Your task to perform on an android device: Open a new incognito tab in the chrome app Image 0: 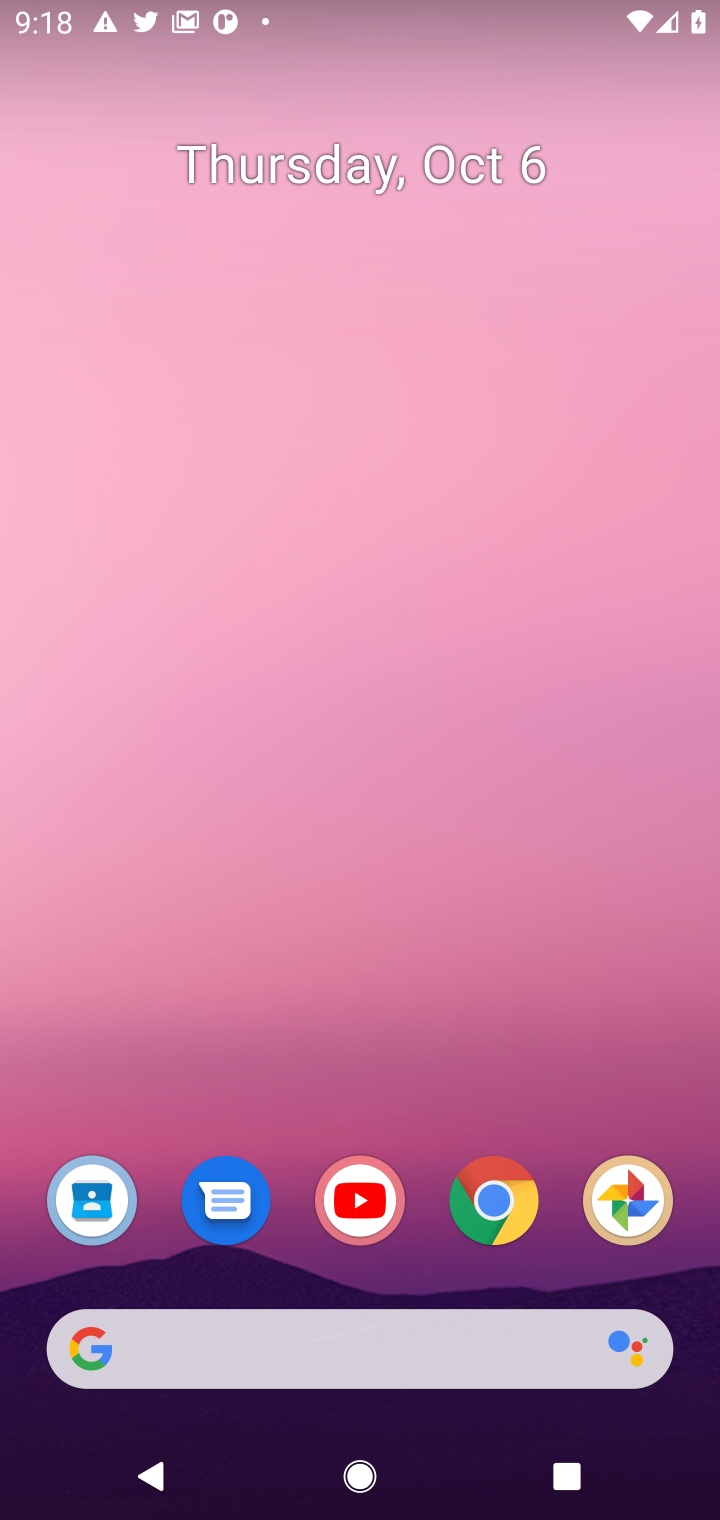
Step 0: click (499, 1240)
Your task to perform on an android device: Open a new incognito tab in the chrome app Image 1: 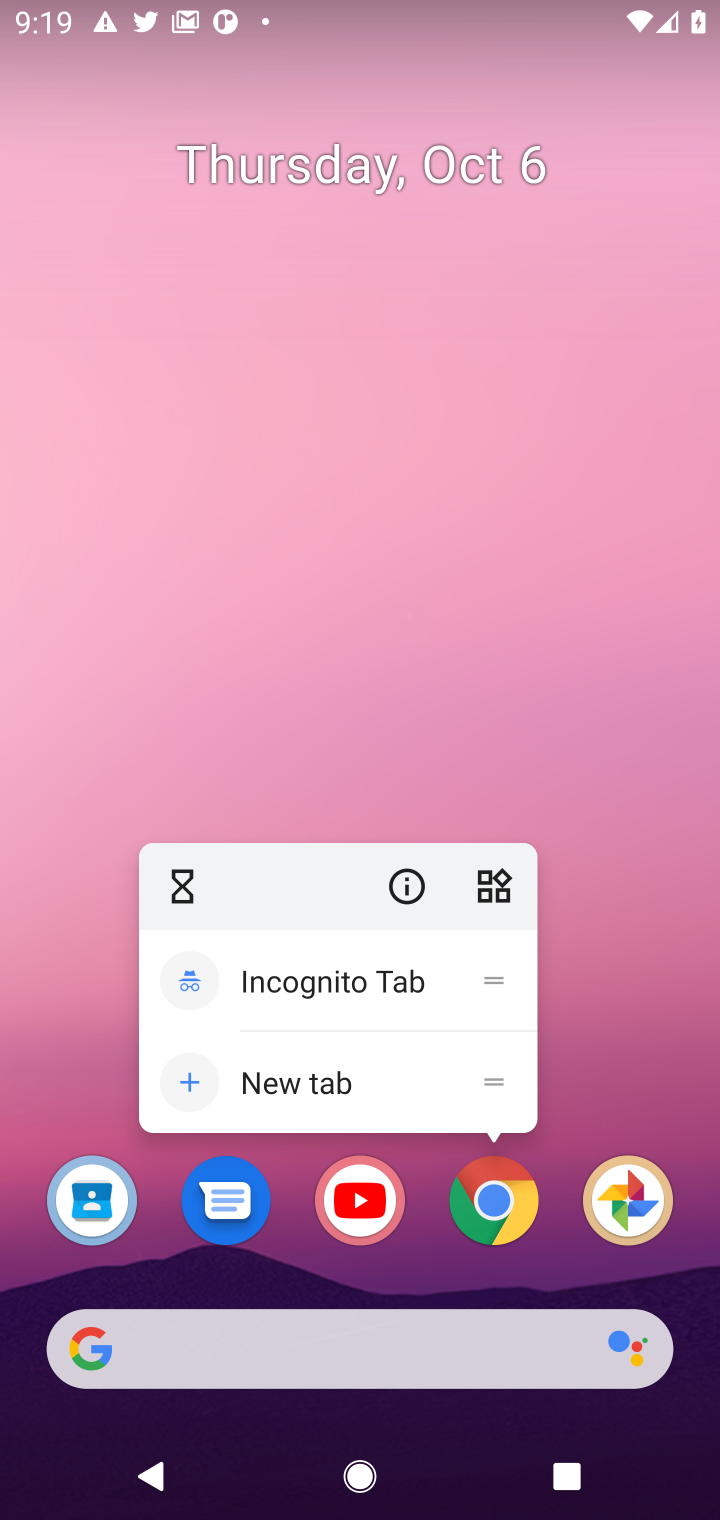
Step 1: click (376, 978)
Your task to perform on an android device: Open a new incognito tab in the chrome app Image 2: 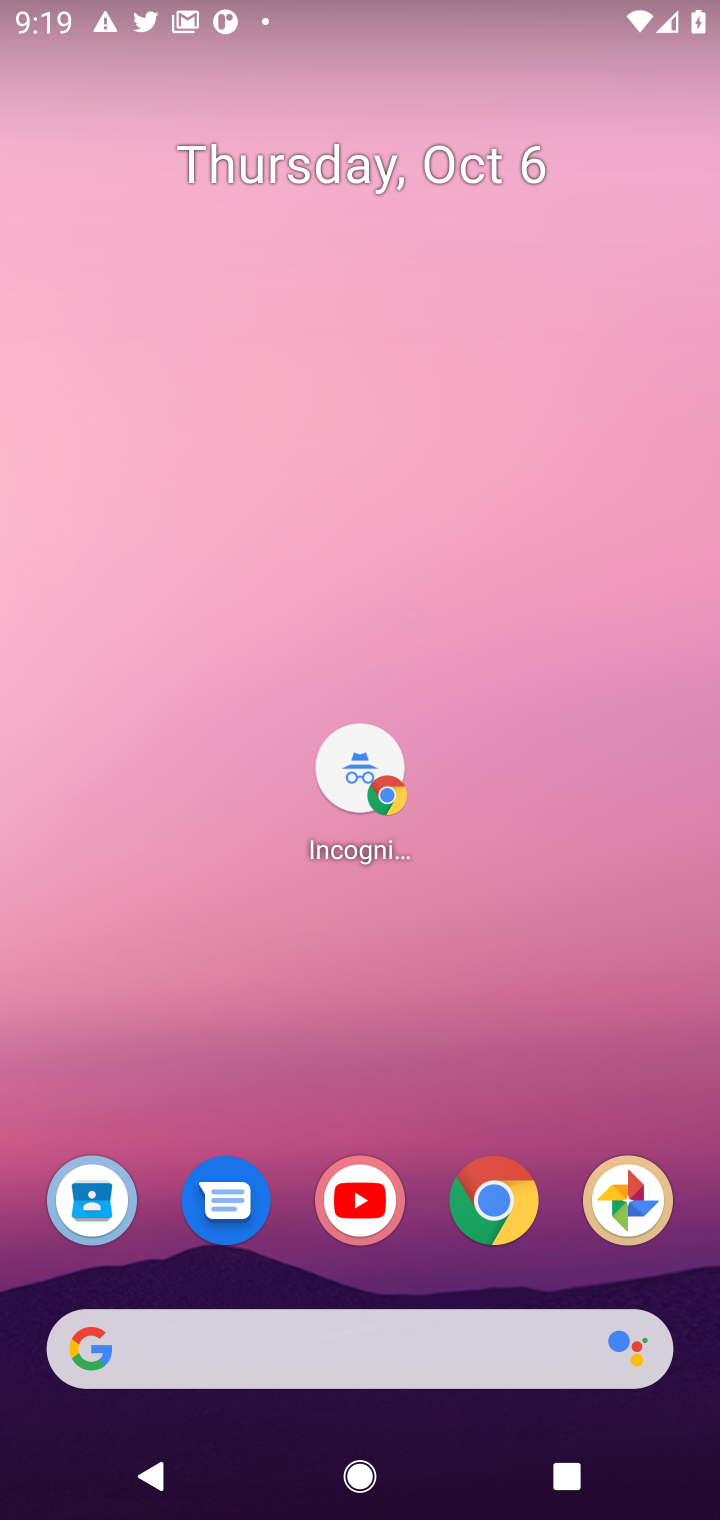
Step 2: click (380, 802)
Your task to perform on an android device: Open a new incognito tab in the chrome app Image 3: 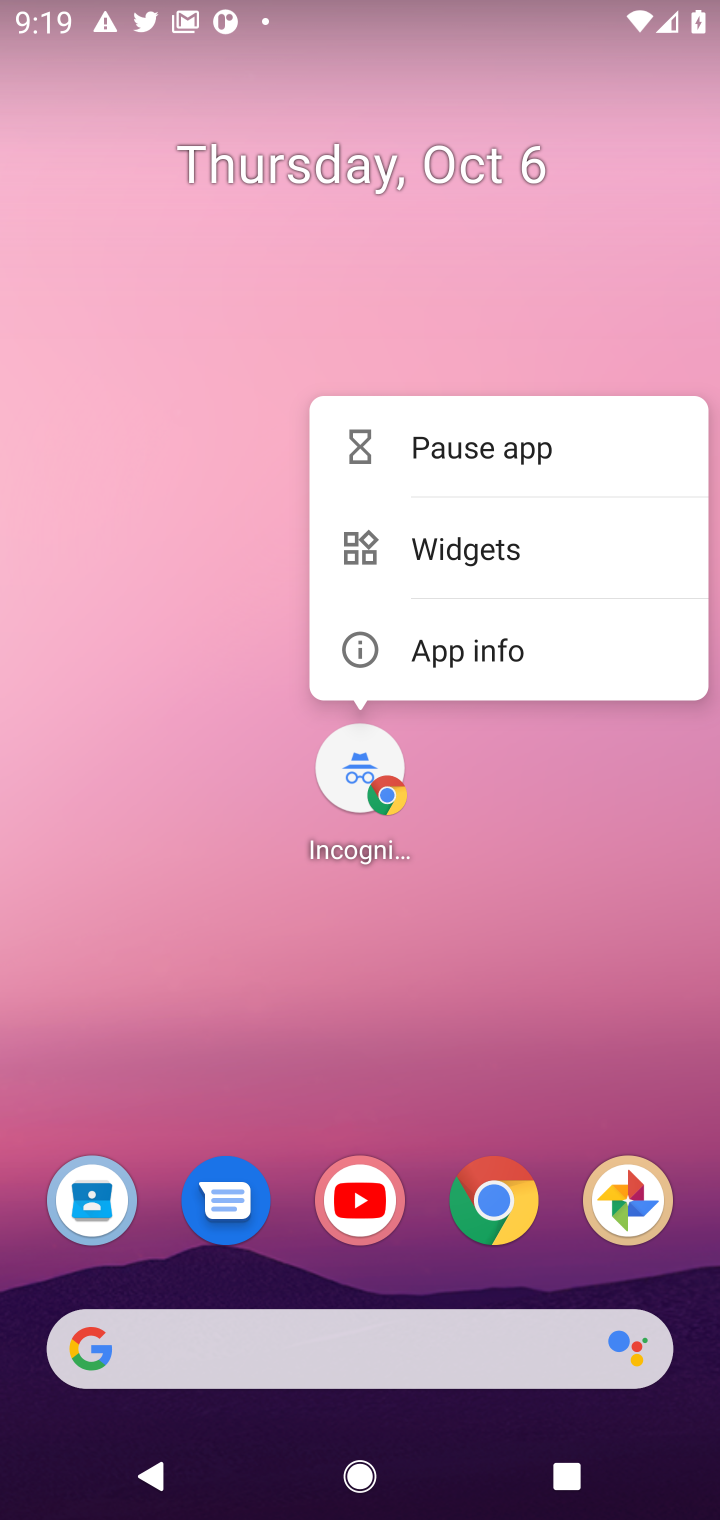
Step 3: press home button
Your task to perform on an android device: Open a new incognito tab in the chrome app Image 4: 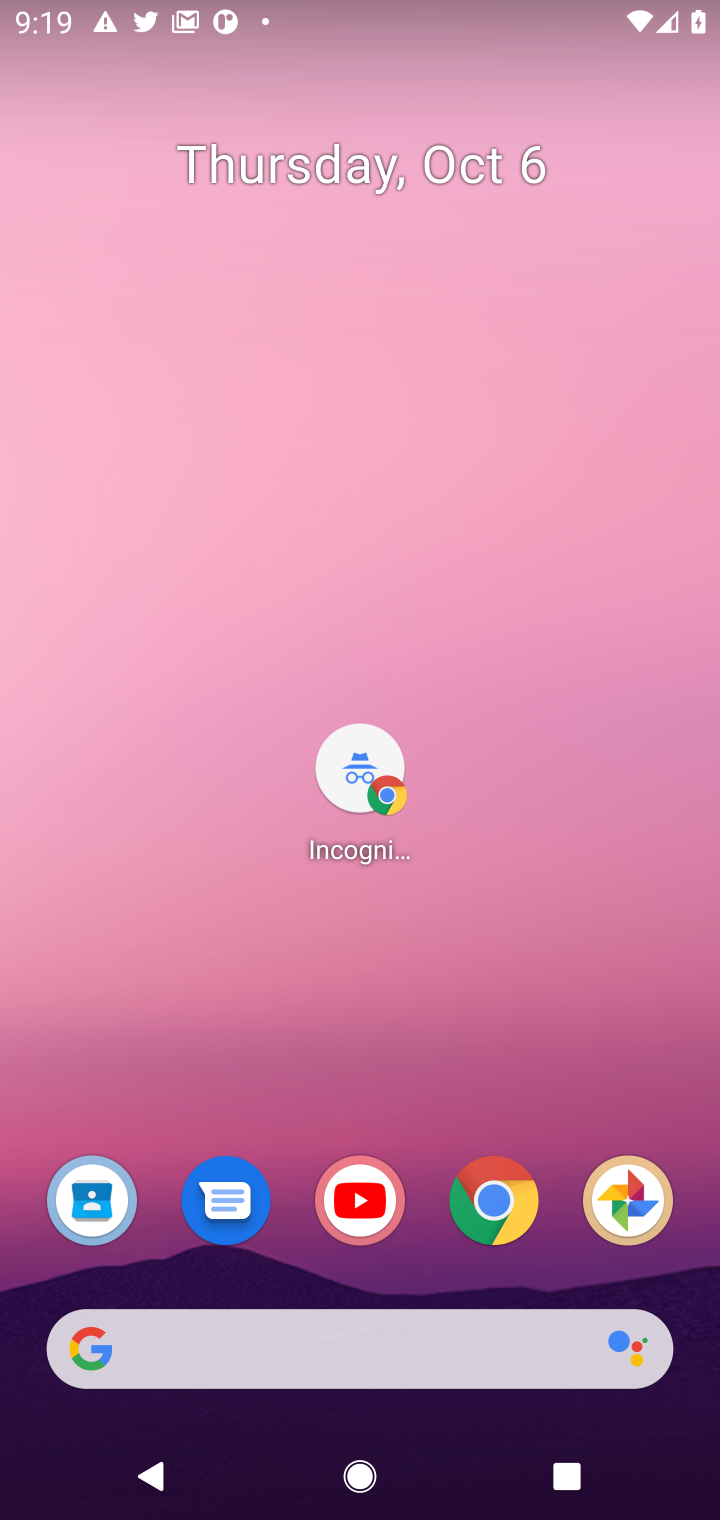
Step 4: press back button
Your task to perform on an android device: Open a new incognito tab in the chrome app Image 5: 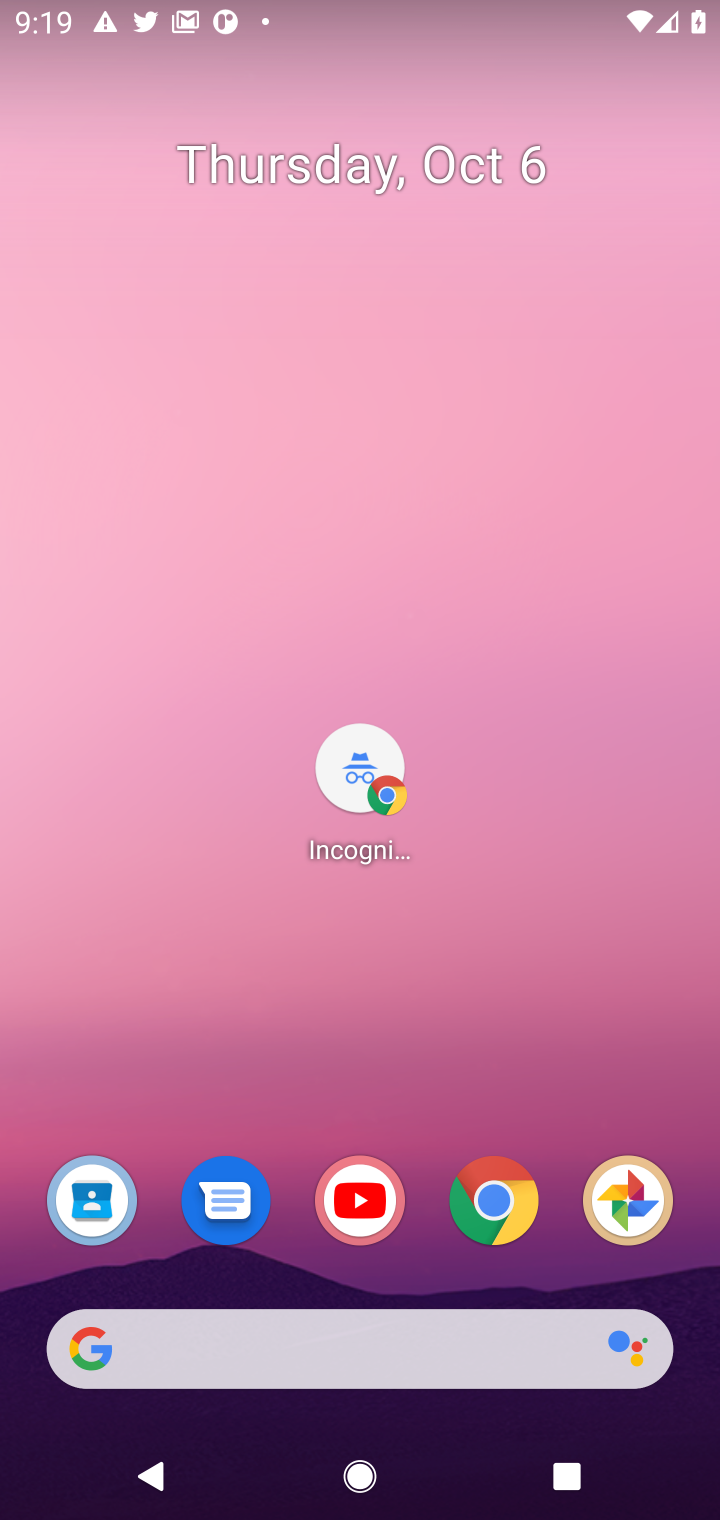
Step 5: press home button
Your task to perform on an android device: Open a new incognito tab in the chrome app Image 6: 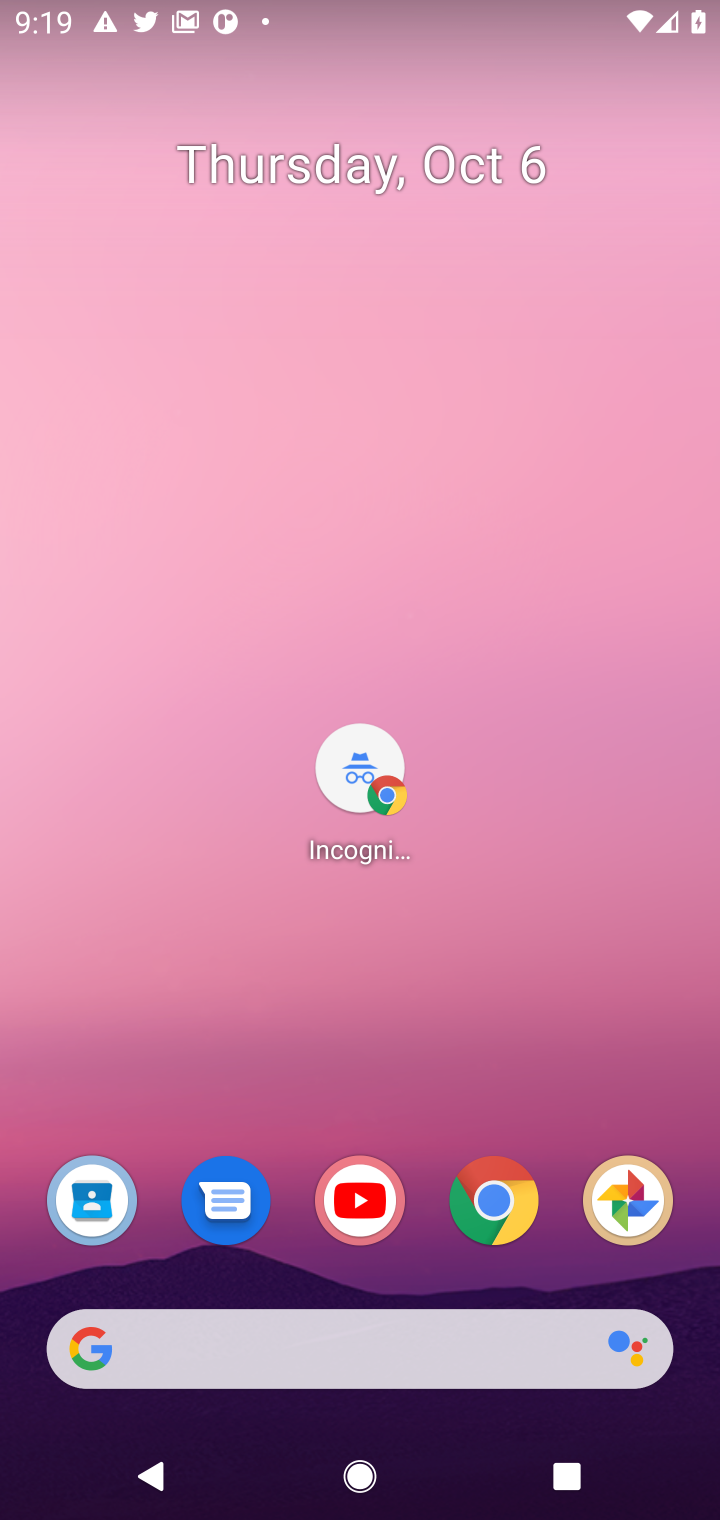
Step 6: press back button
Your task to perform on an android device: Open a new incognito tab in the chrome app Image 7: 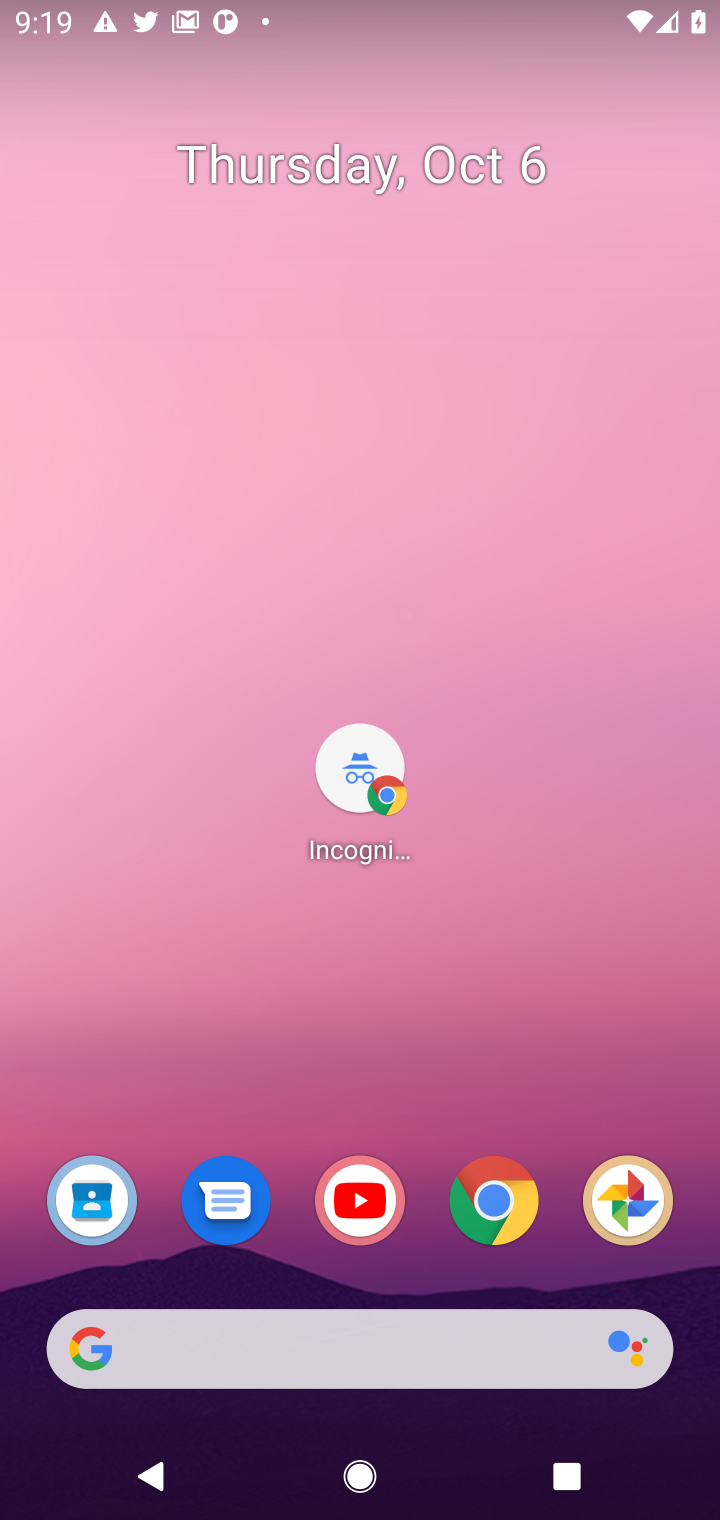
Step 7: click (497, 1178)
Your task to perform on an android device: Open a new incognito tab in the chrome app Image 8: 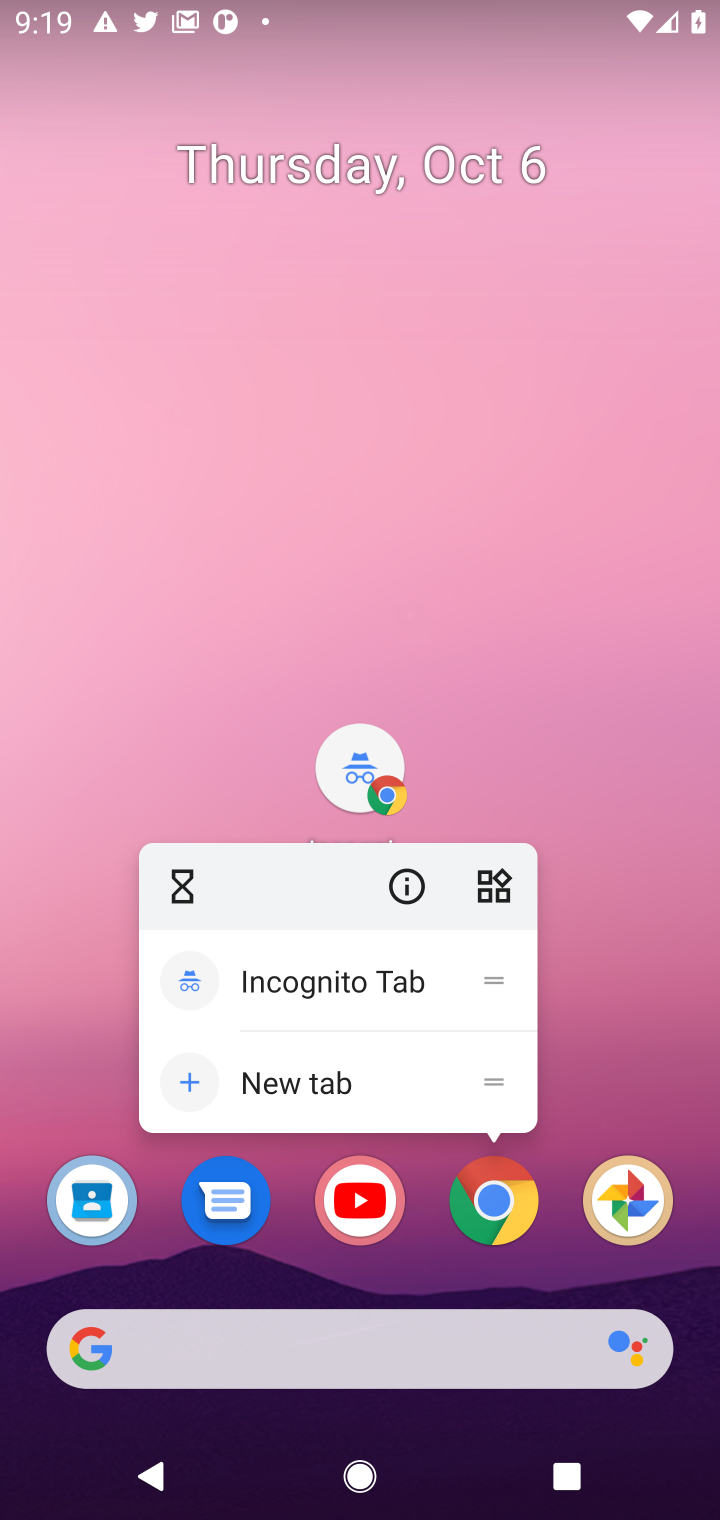
Step 8: click (304, 984)
Your task to perform on an android device: Open a new incognito tab in the chrome app Image 9: 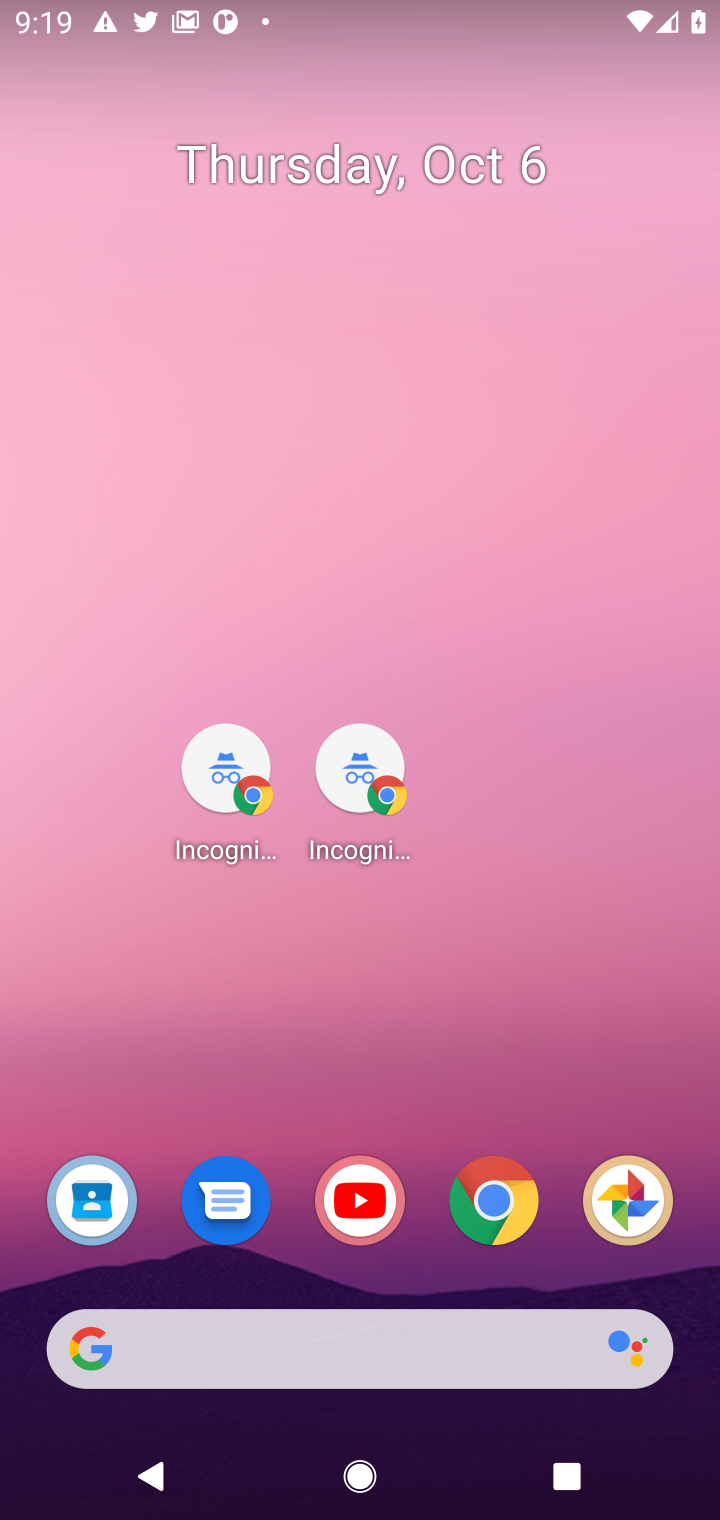
Step 9: click (240, 770)
Your task to perform on an android device: Open a new incognito tab in the chrome app Image 10: 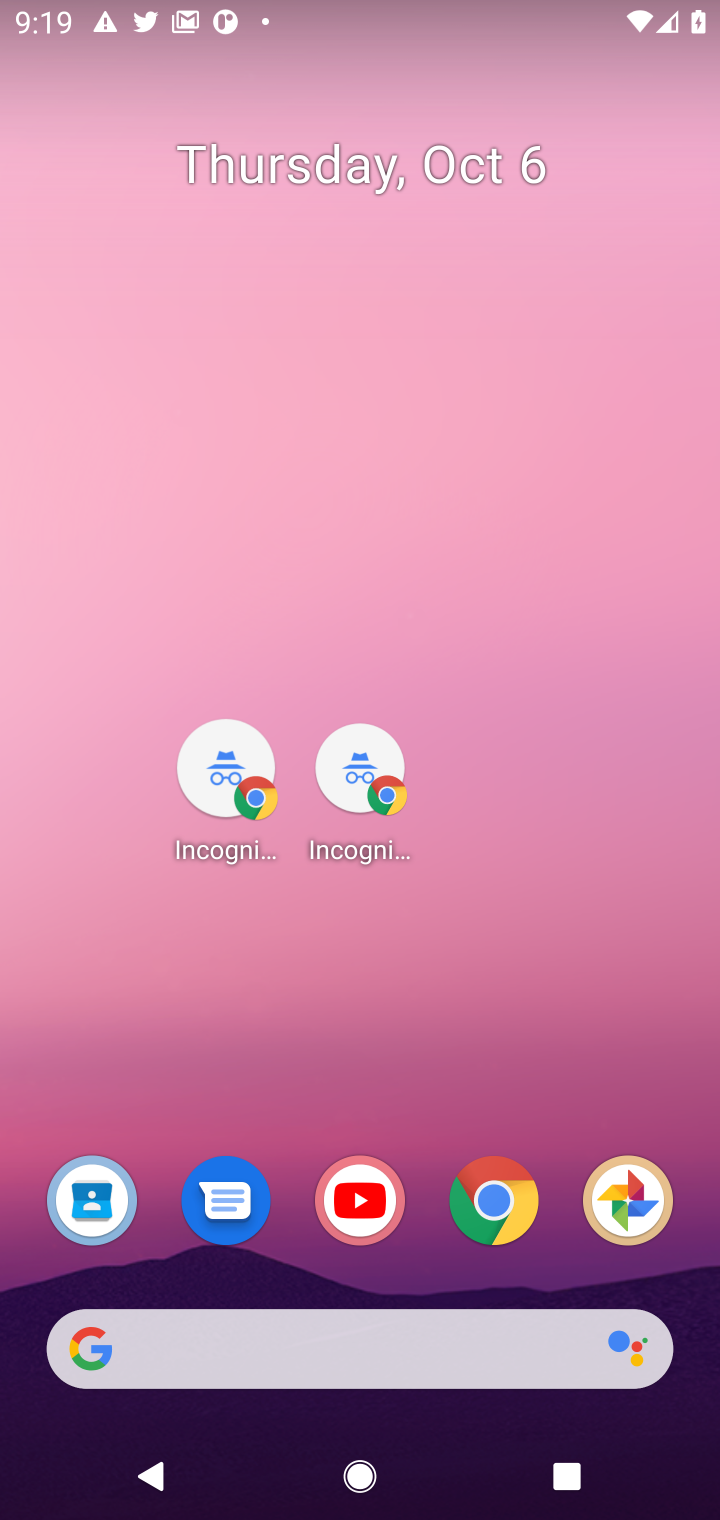
Step 10: click (240, 766)
Your task to perform on an android device: Open a new incognito tab in the chrome app Image 11: 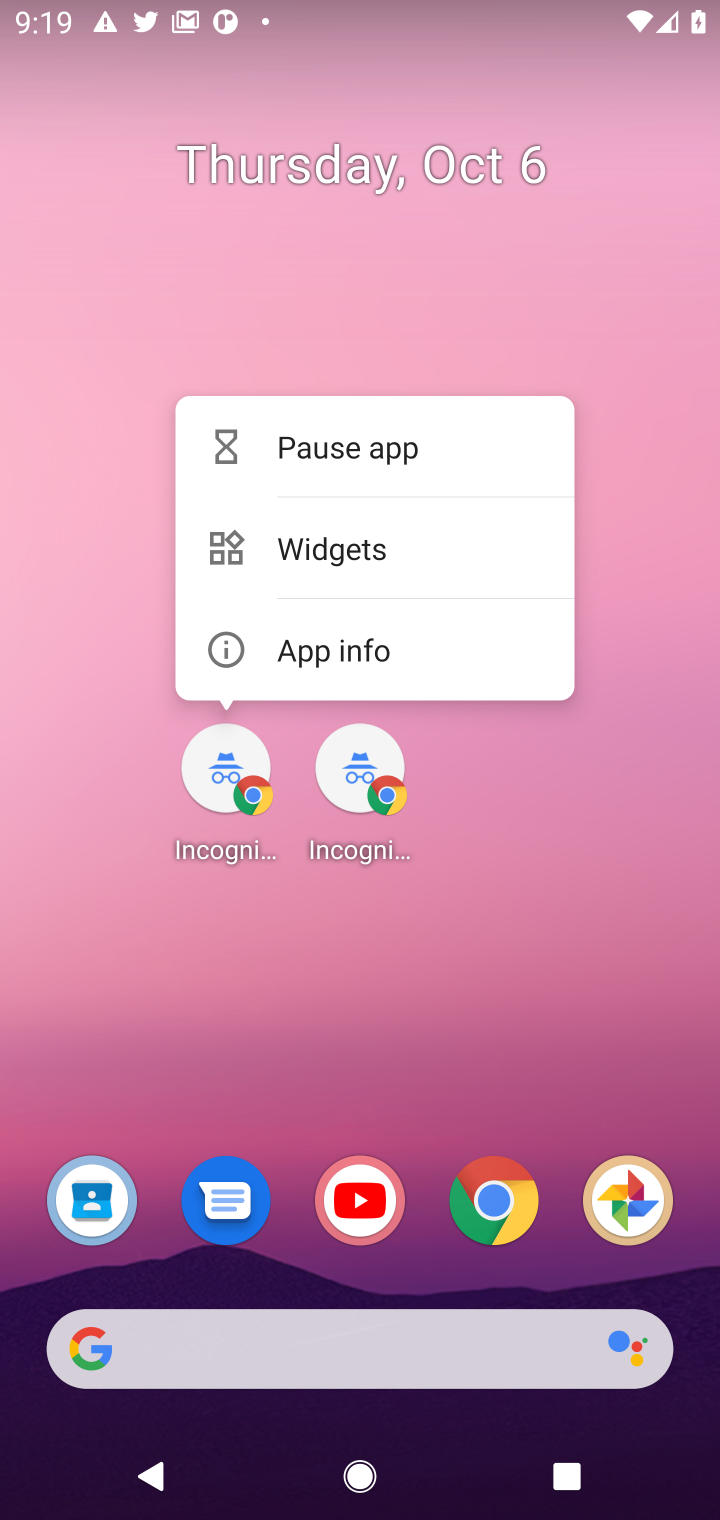
Step 11: click (364, 773)
Your task to perform on an android device: Open a new incognito tab in the chrome app Image 12: 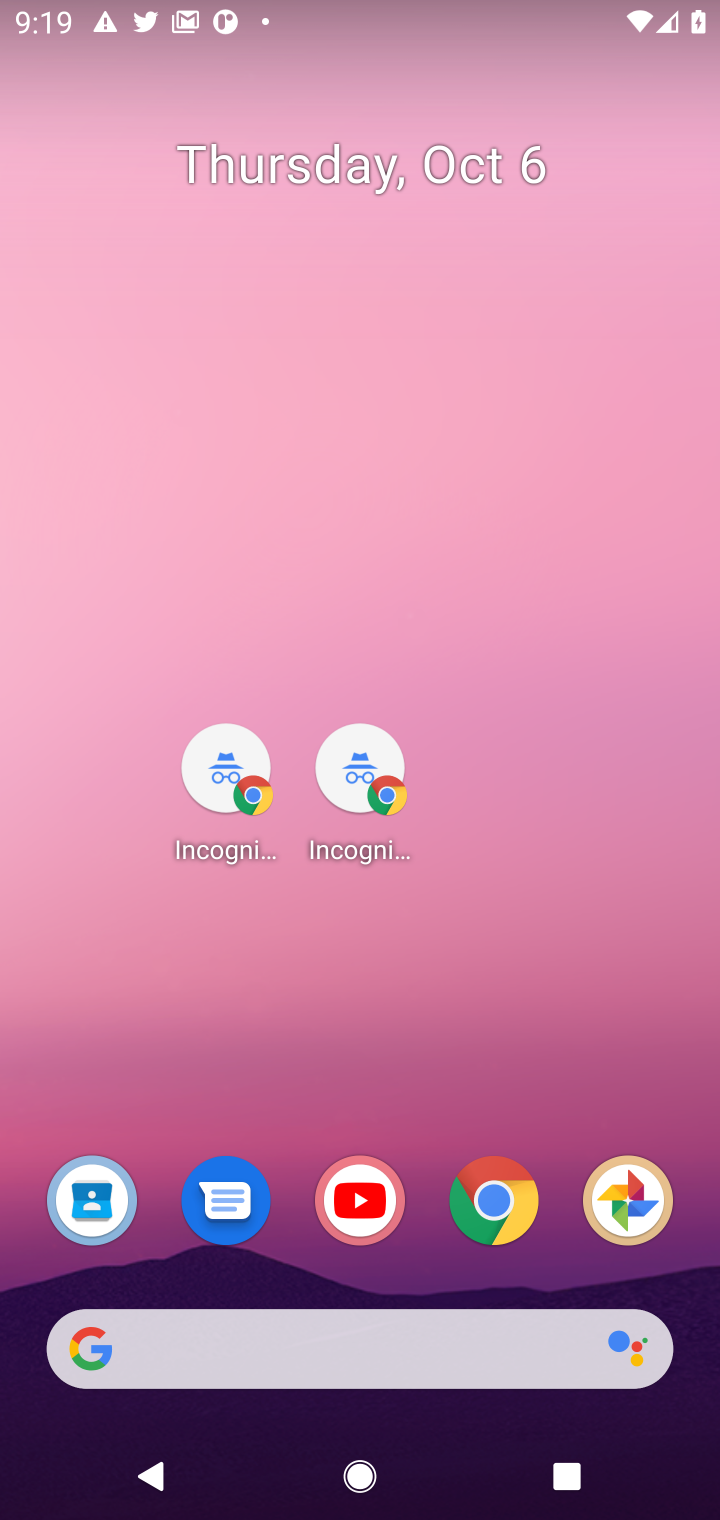
Step 12: click (504, 1202)
Your task to perform on an android device: Open a new incognito tab in the chrome app Image 13: 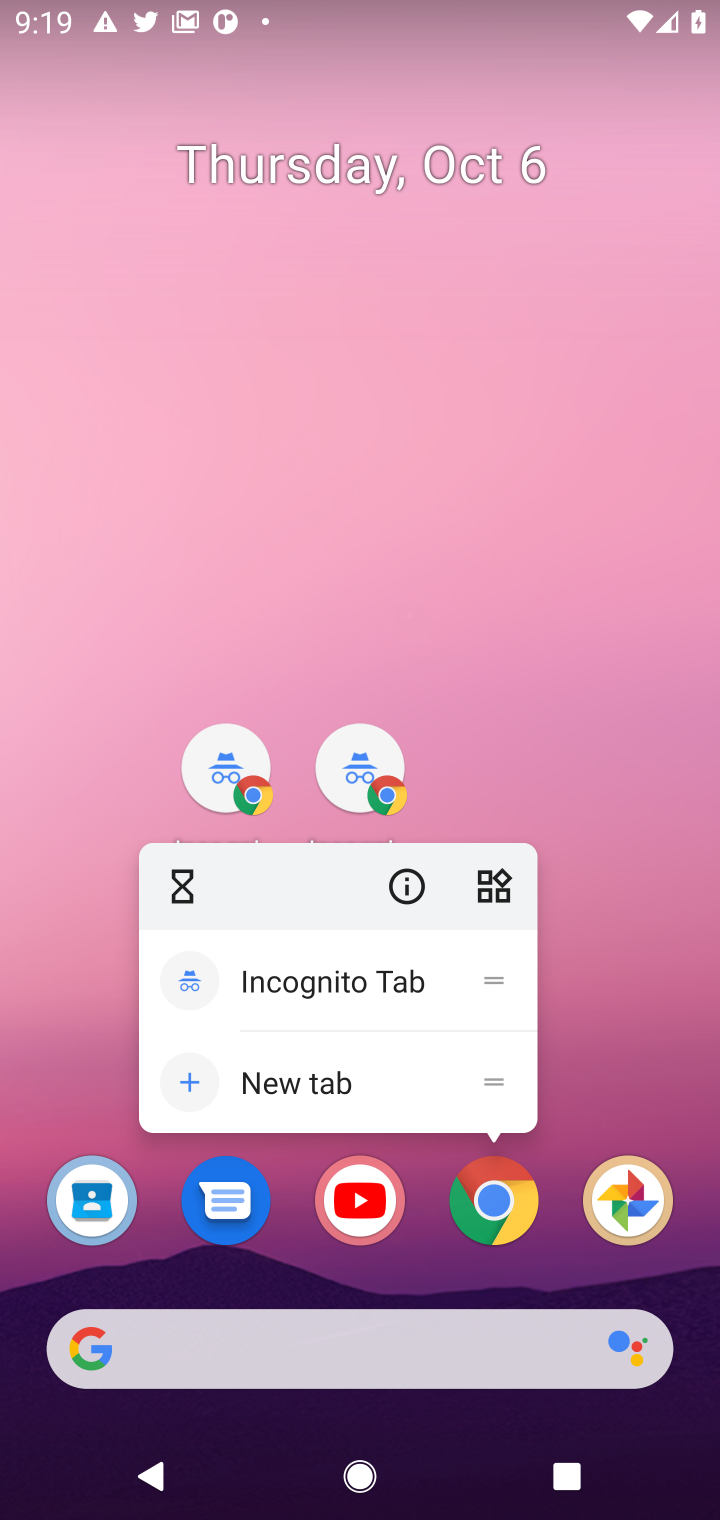
Step 13: click (185, 1083)
Your task to perform on an android device: Open a new incognito tab in the chrome app Image 14: 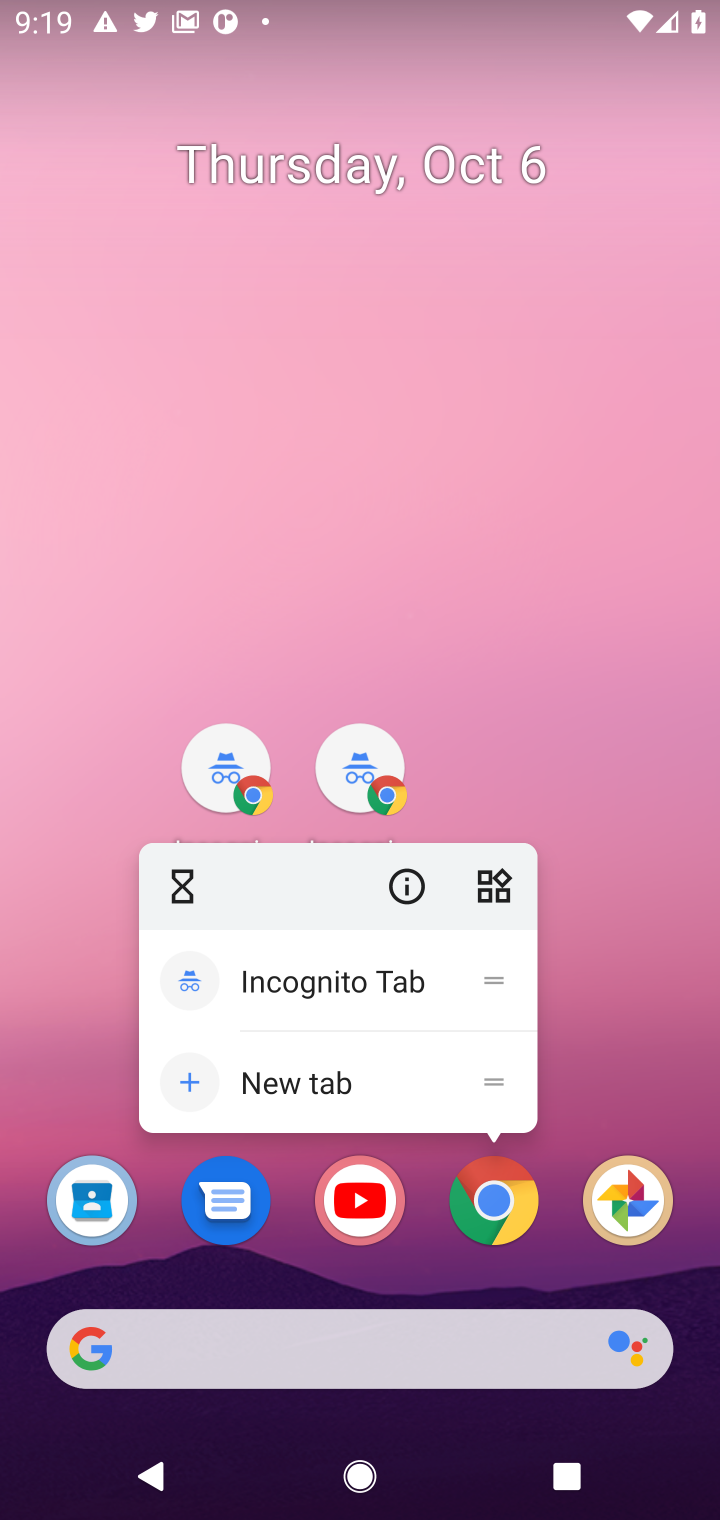
Step 14: press back button
Your task to perform on an android device: Open a new incognito tab in the chrome app Image 15: 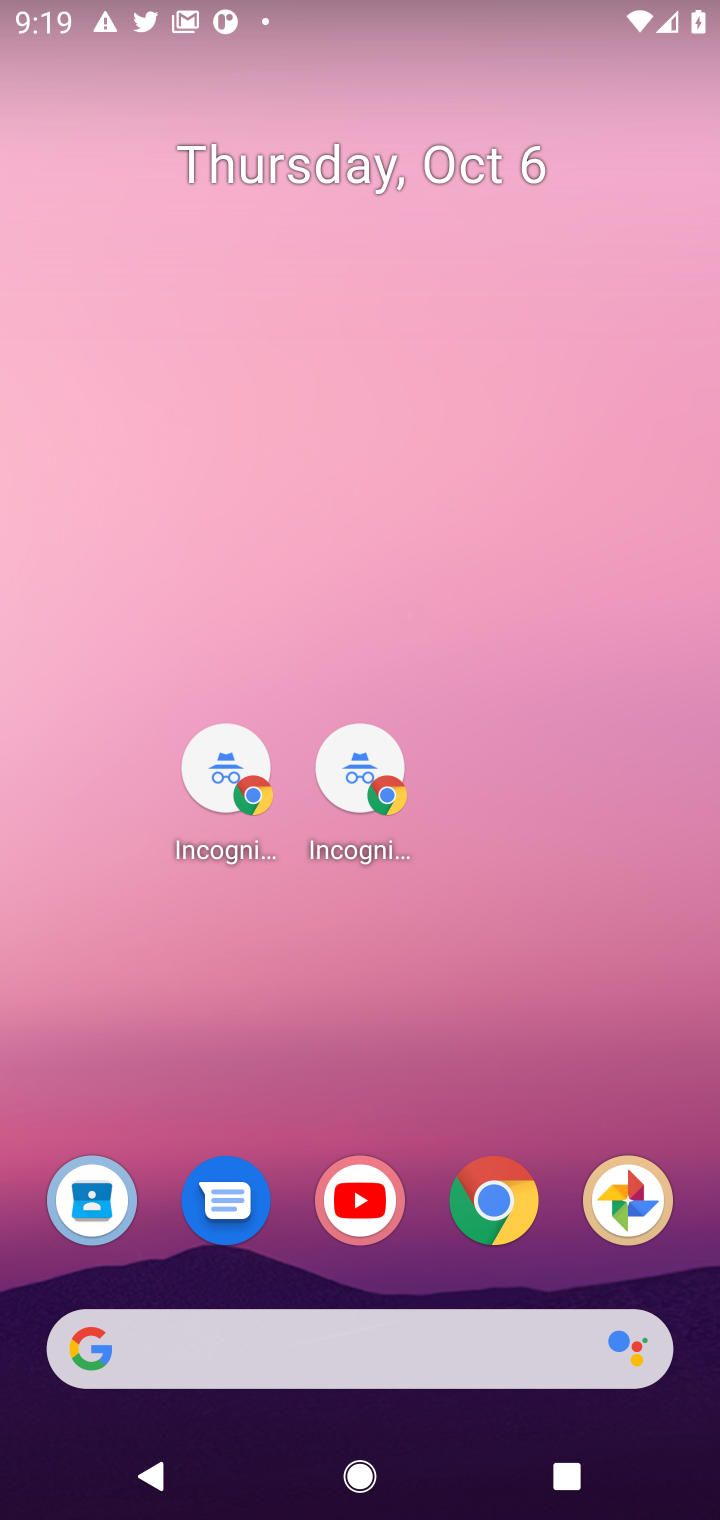
Step 15: click (468, 1192)
Your task to perform on an android device: Open a new incognito tab in the chrome app Image 16: 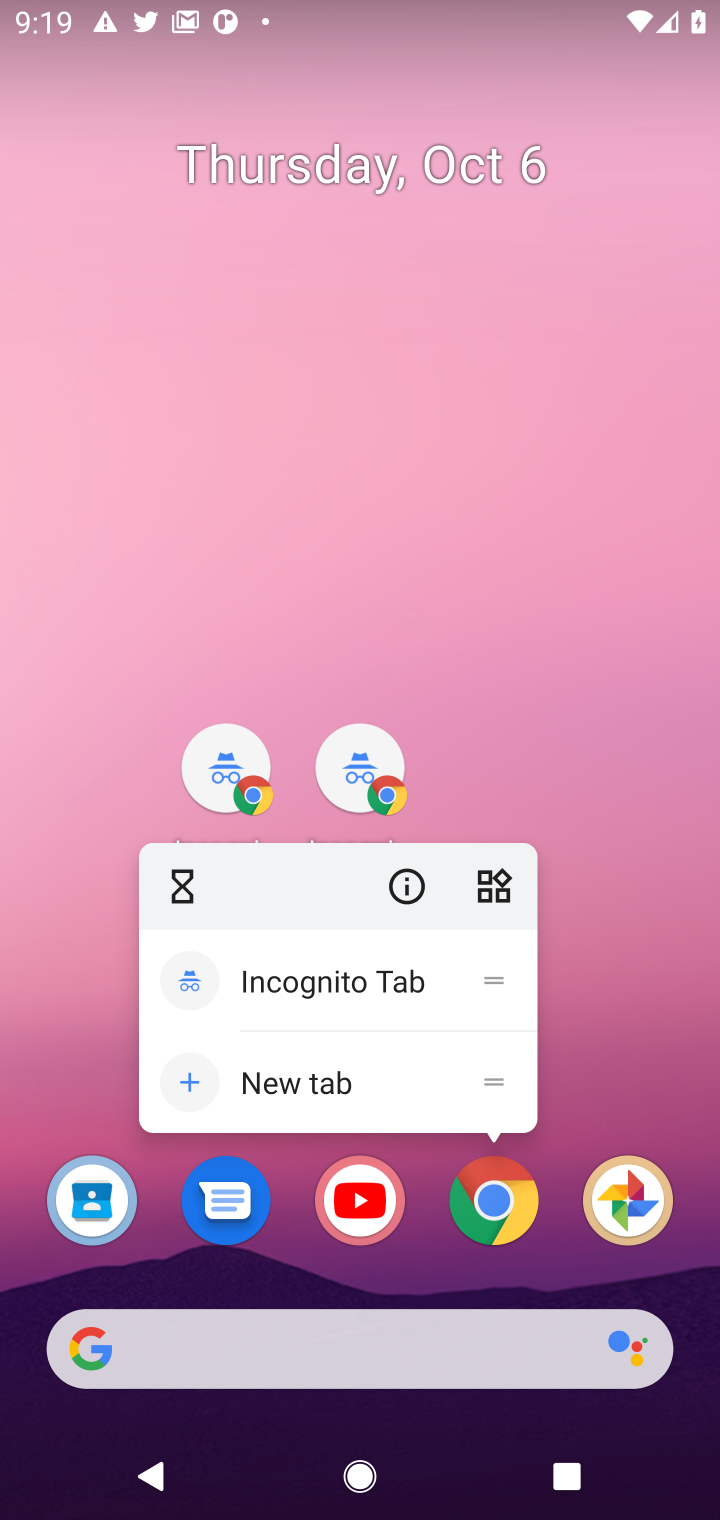
Step 16: press back button
Your task to perform on an android device: Open a new incognito tab in the chrome app Image 17: 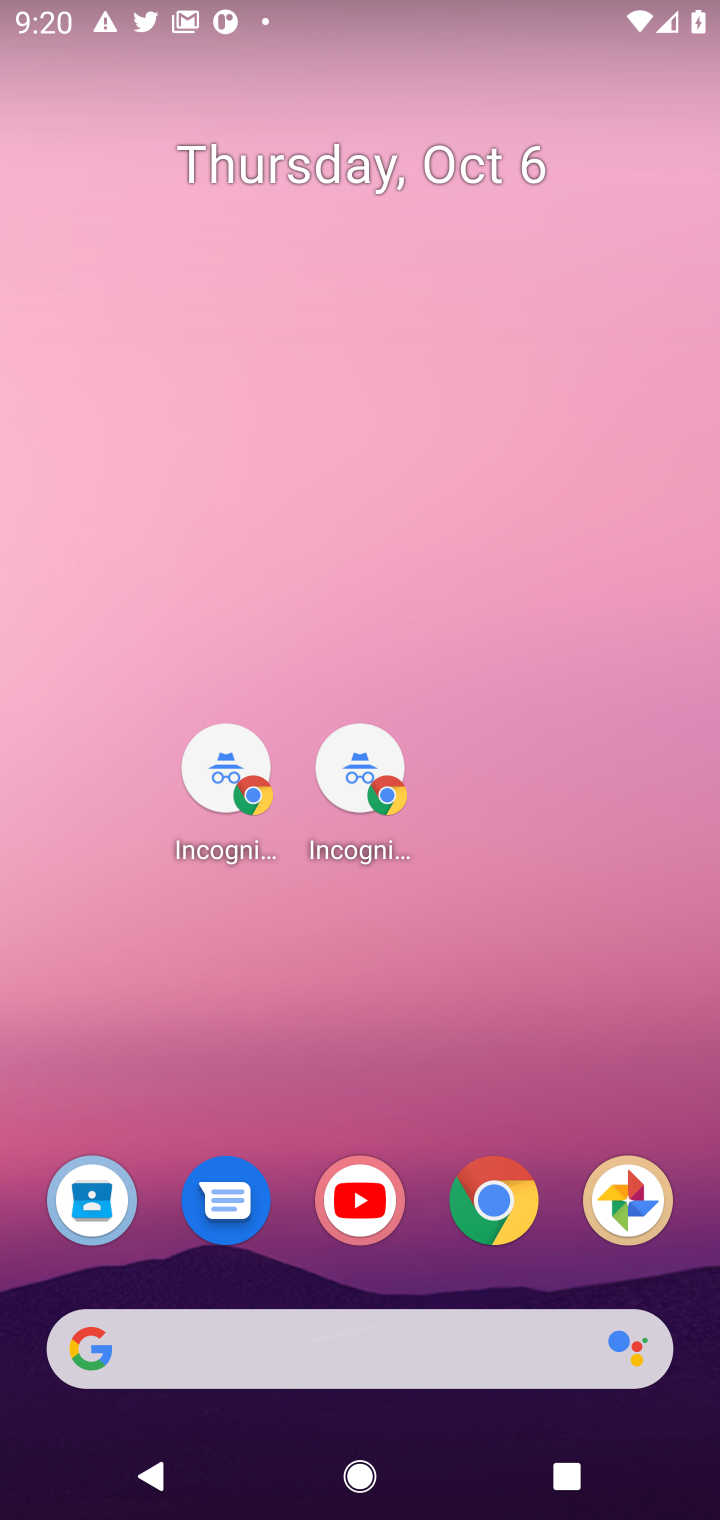
Step 17: press back button
Your task to perform on an android device: Open a new incognito tab in the chrome app Image 18: 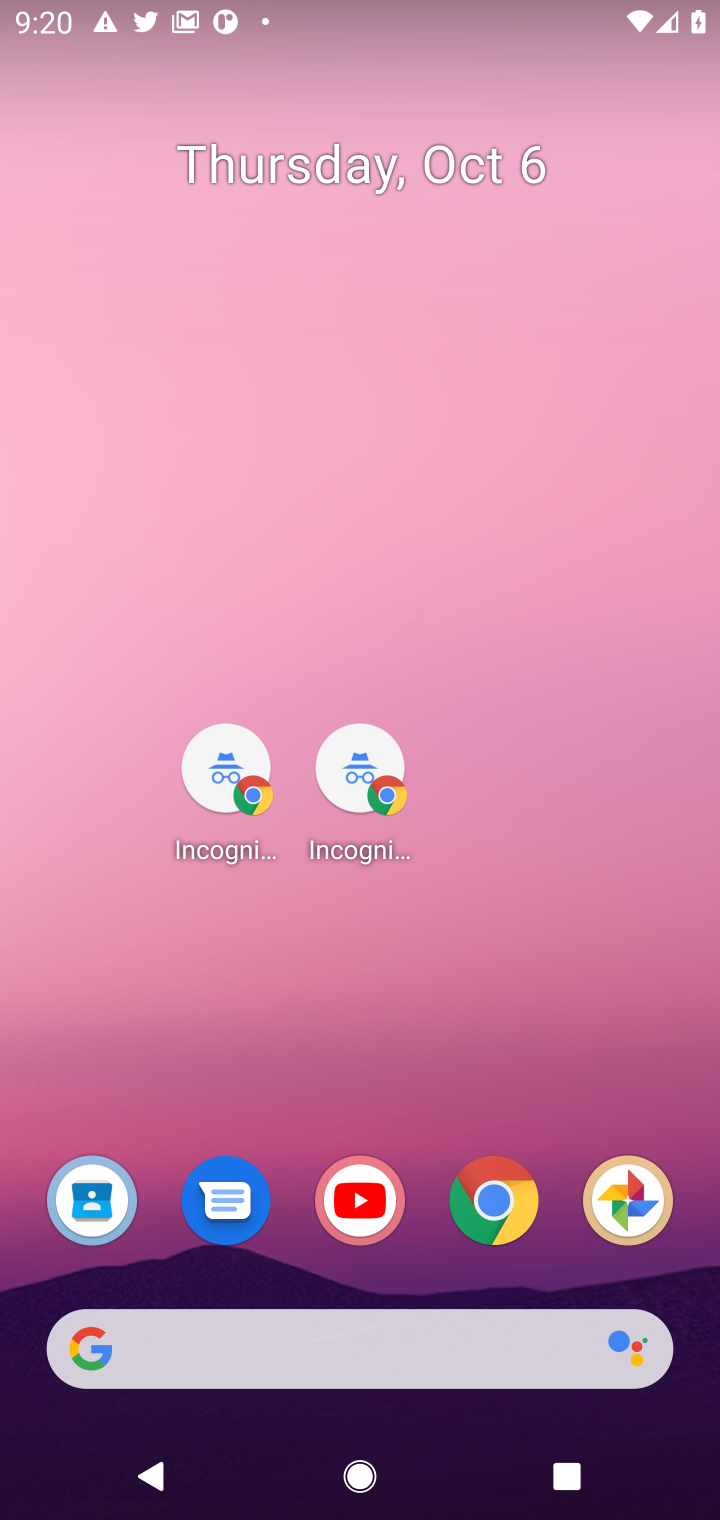
Step 18: click (512, 1205)
Your task to perform on an android device: Open a new incognito tab in the chrome app Image 19: 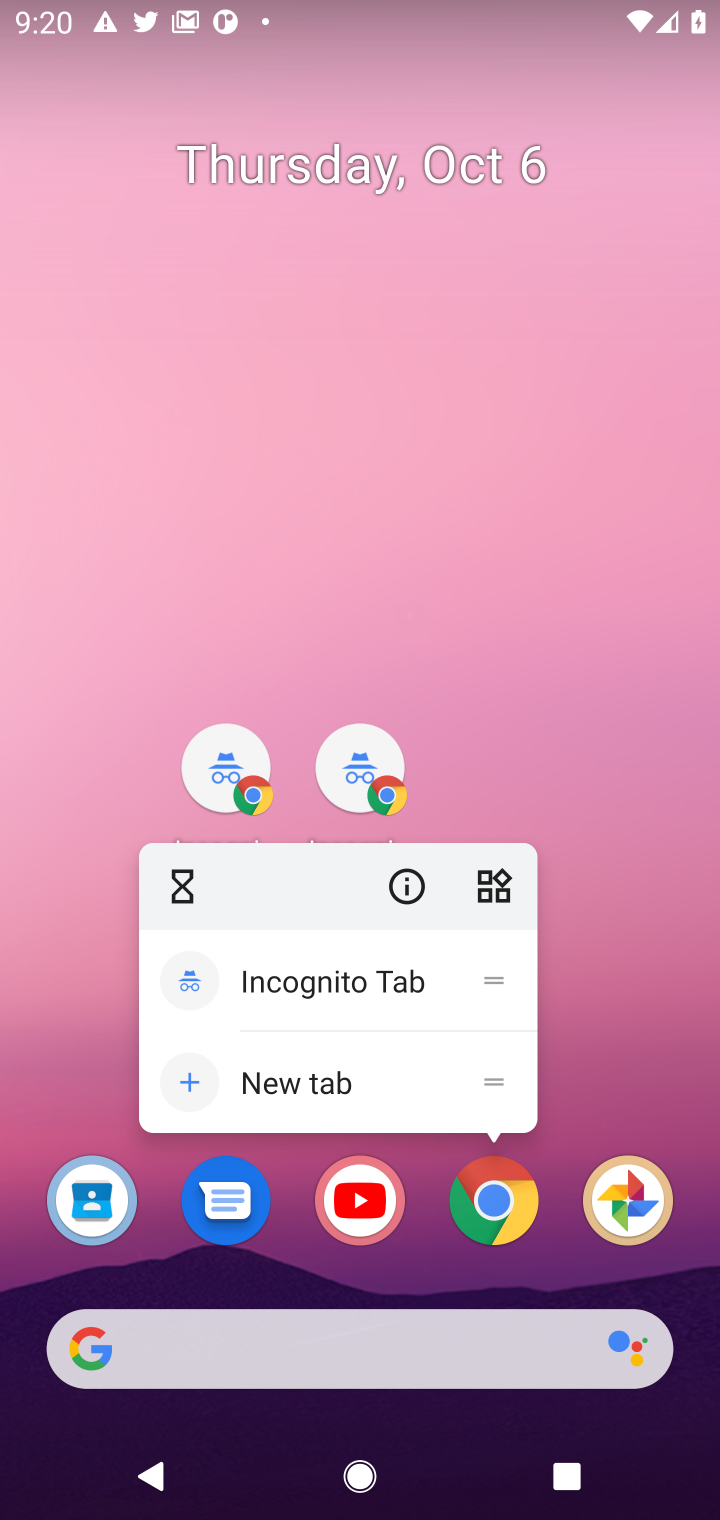
Step 19: click (373, 1336)
Your task to perform on an android device: Open a new incognito tab in the chrome app Image 20: 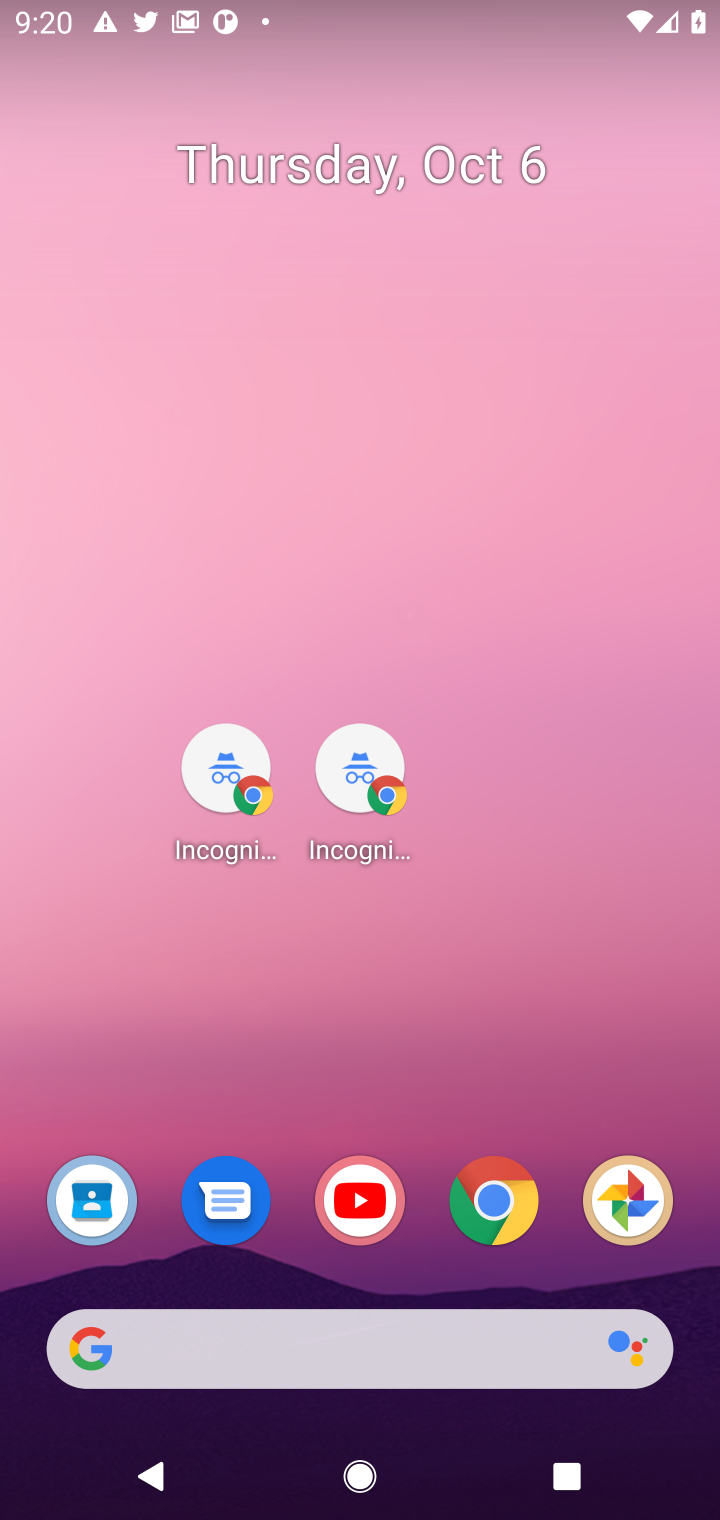
Step 20: click (508, 1209)
Your task to perform on an android device: Open a new incognito tab in the chrome app Image 21: 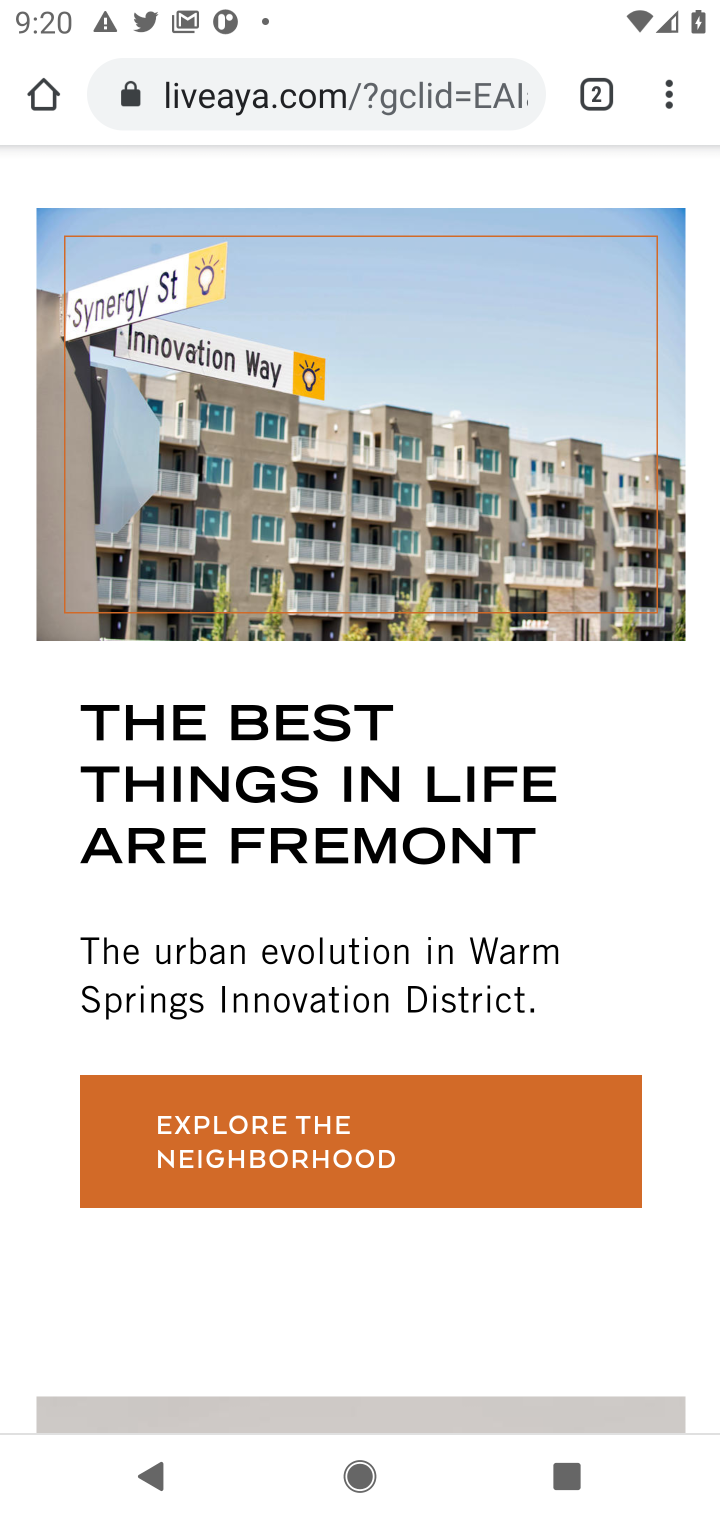
Step 21: click (401, 83)
Your task to perform on an android device: Open a new incognito tab in the chrome app Image 22: 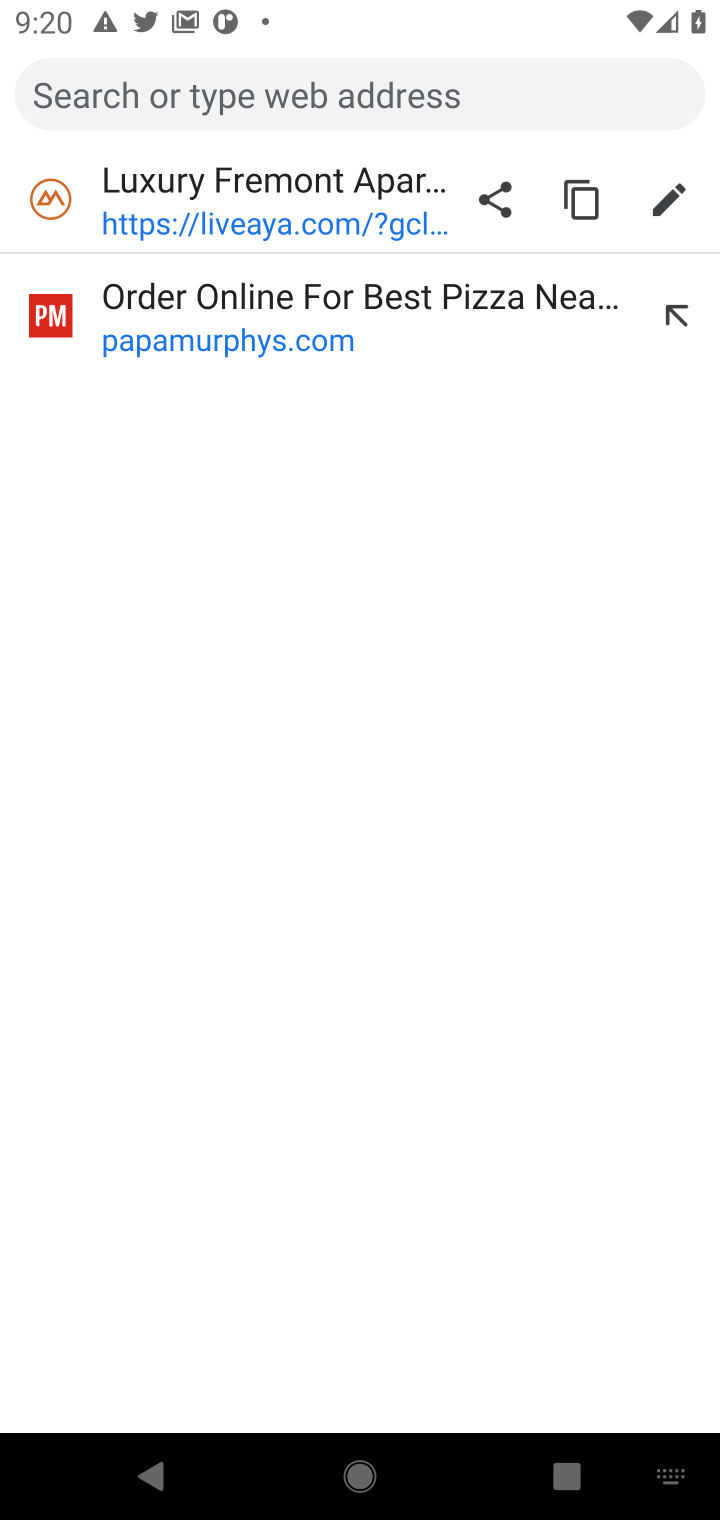
Step 22: type "new incognito tab"
Your task to perform on an android device: Open a new incognito tab in the chrome app Image 23: 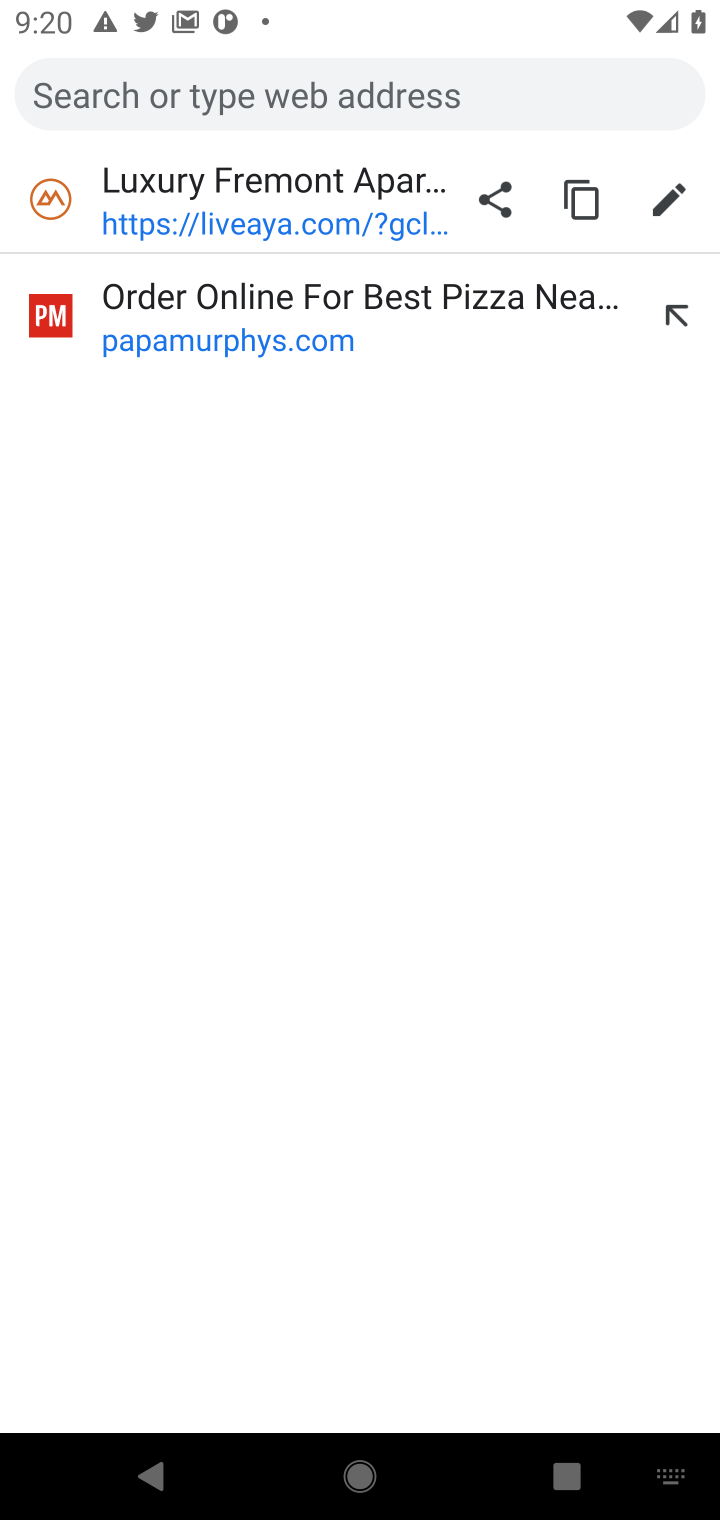
Step 23: drag from (437, 332) to (281, 302)
Your task to perform on an android device: Open a new incognito tab in the chrome app Image 24: 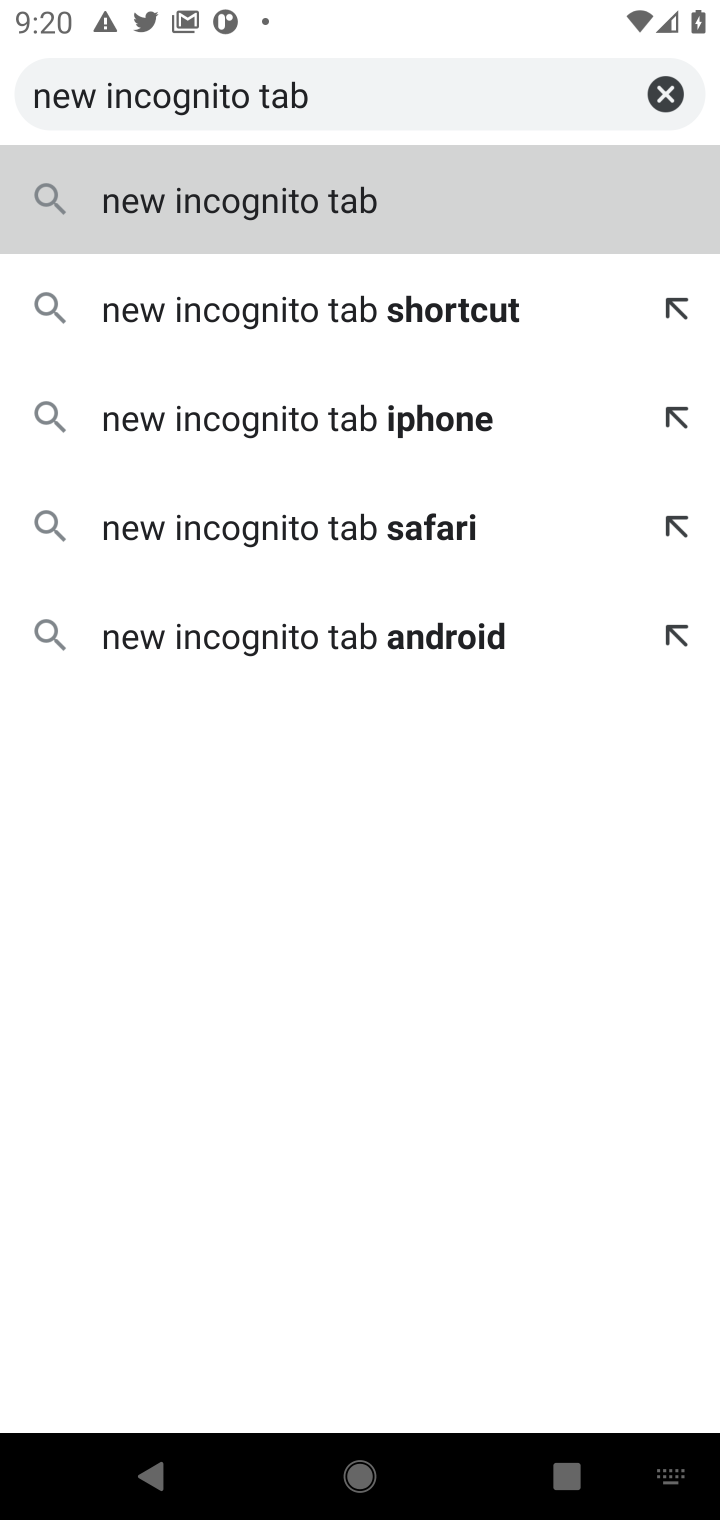
Step 24: click (230, 205)
Your task to perform on an android device: Open a new incognito tab in the chrome app Image 25: 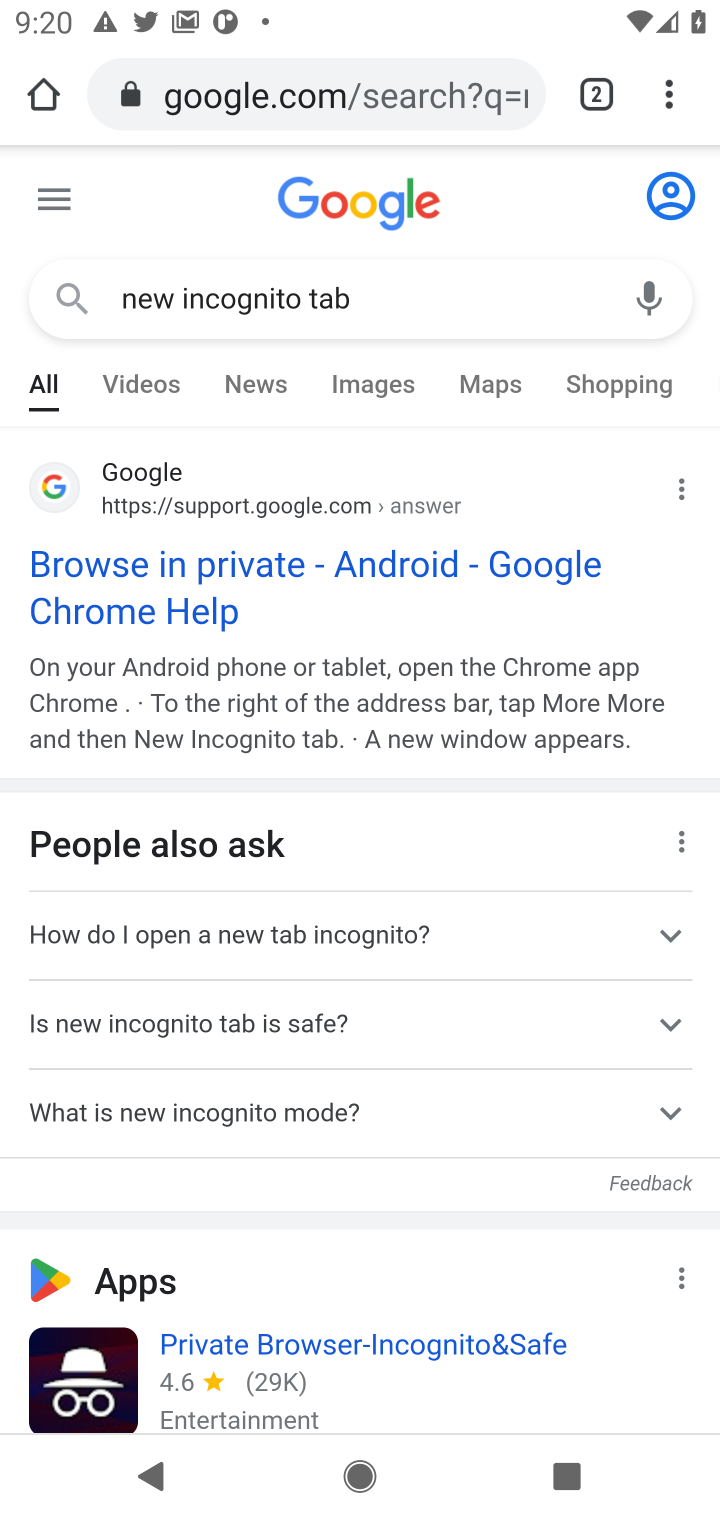
Step 25: drag from (541, 933) to (549, 639)
Your task to perform on an android device: Open a new incognito tab in the chrome app Image 26: 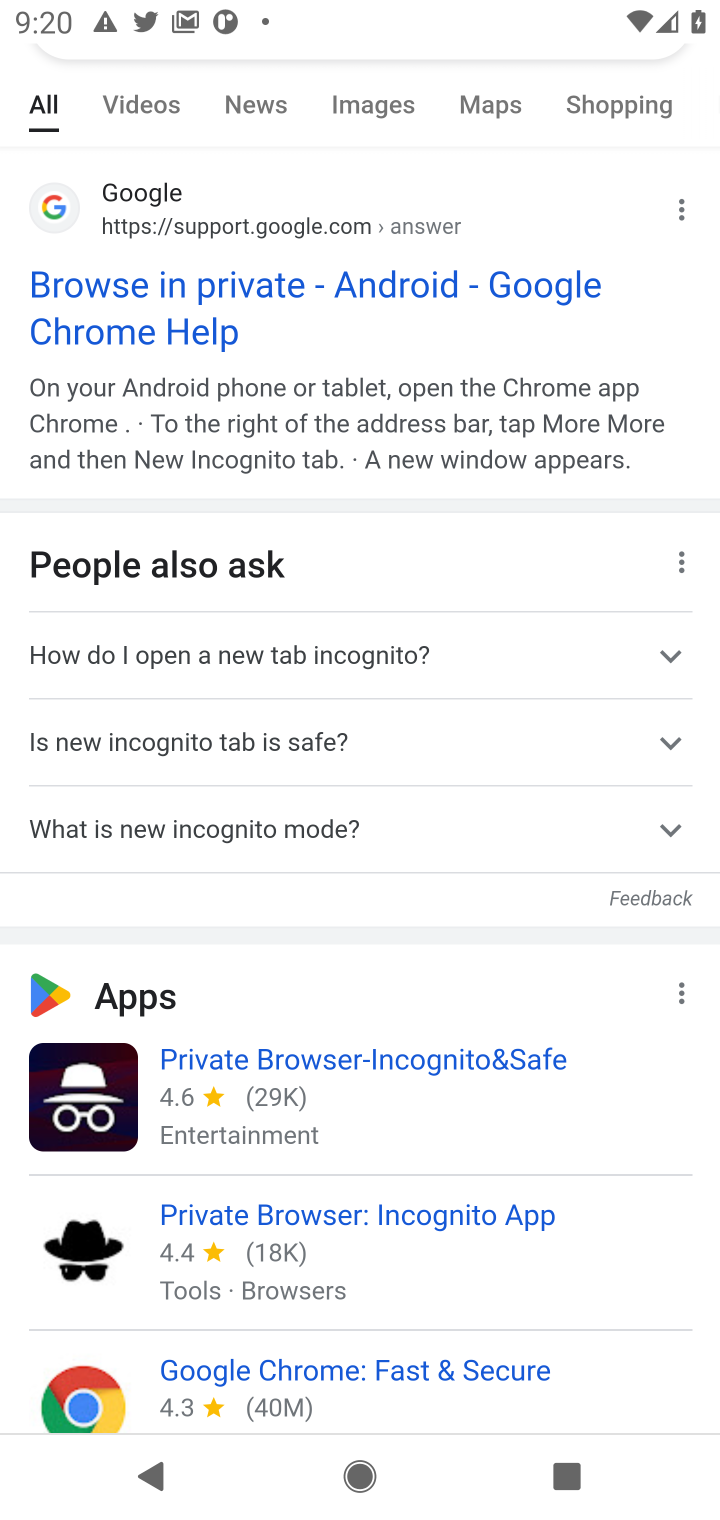
Step 26: press back button
Your task to perform on an android device: Open a new incognito tab in the chrome app Image 27: 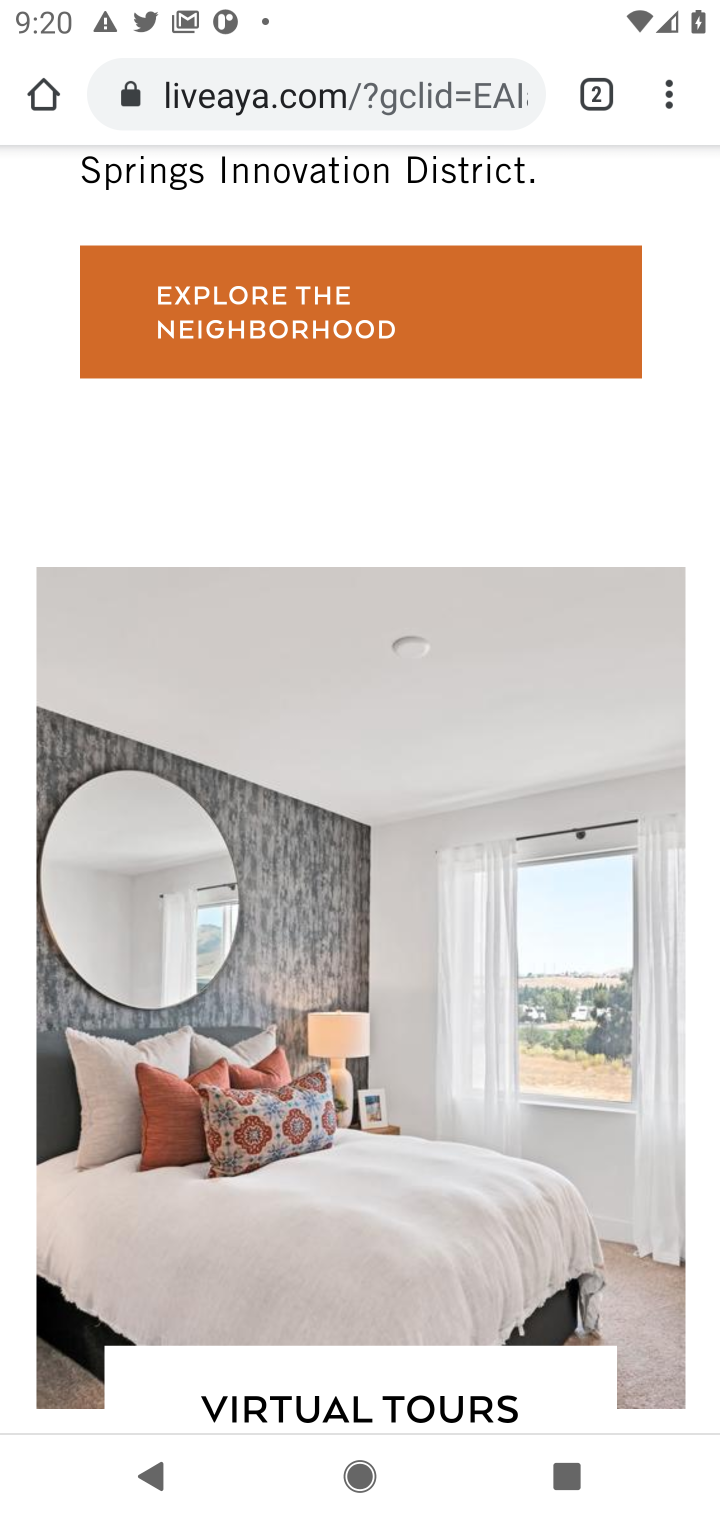
Step 27: click (596, 96)
Your task to perform on an android device: Open a new incognito tab in the chrome app Image 28: 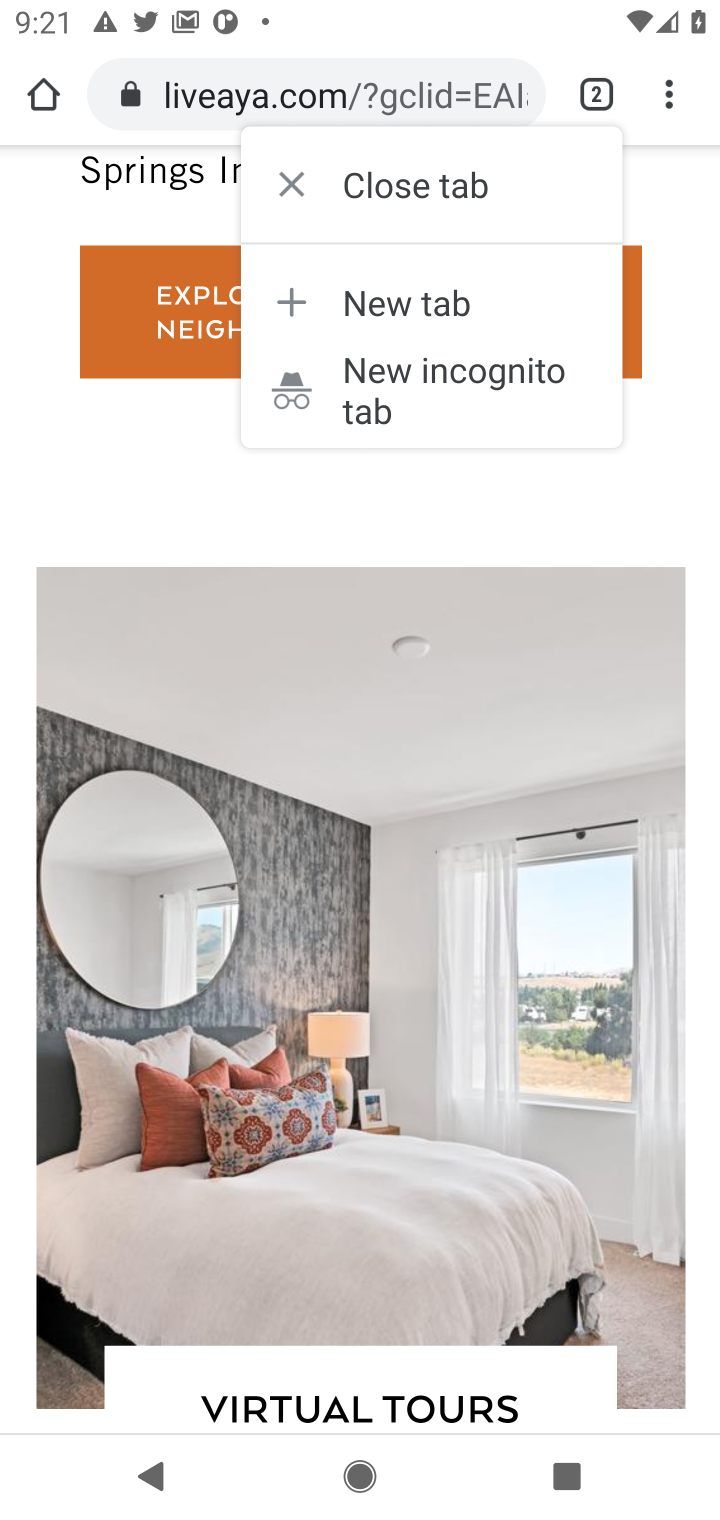
Step 28: click (297, 180)
Your task to perform on an android device: Open a new incognito tab in the chrome app Image 29: 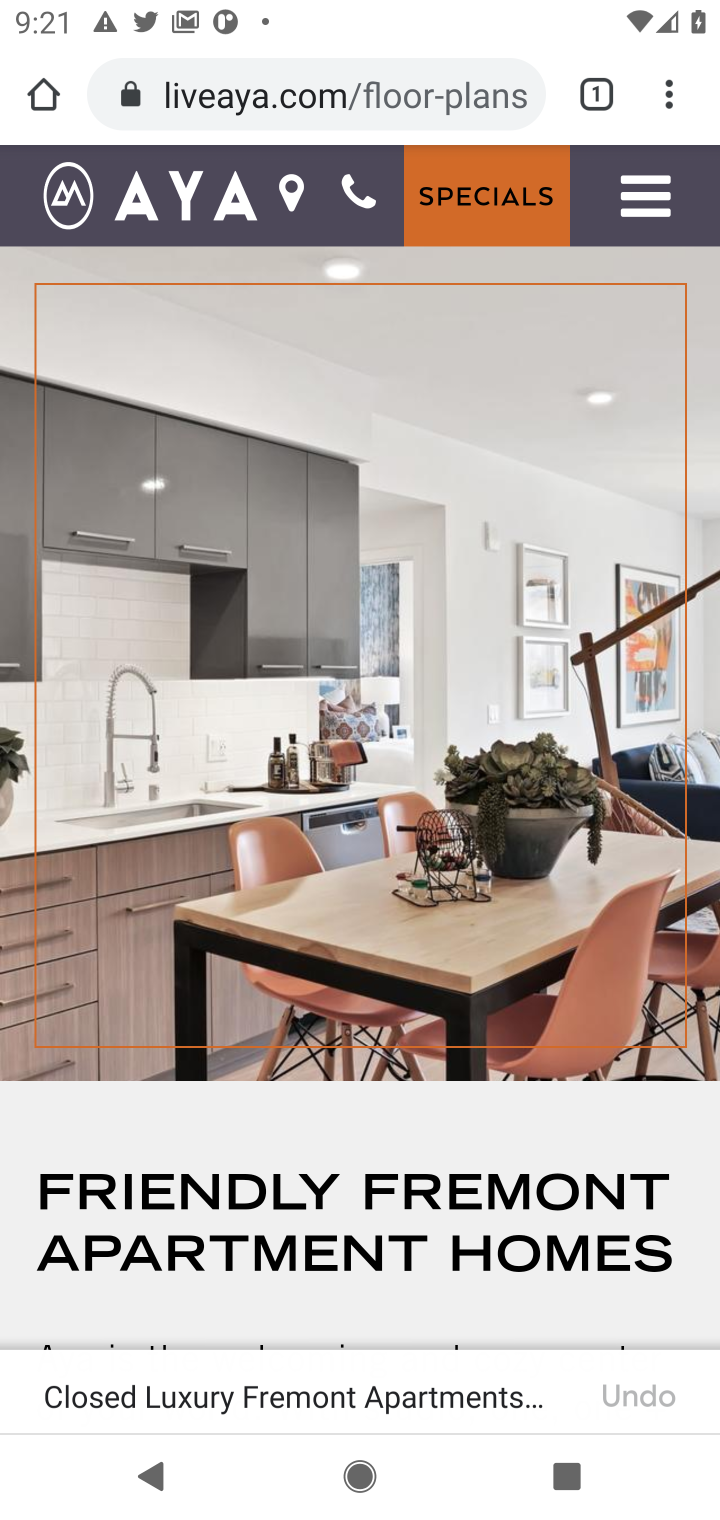
Step 29: click (596, 103)
Your task to perform on an android device: Open a new incognito tab in the chrome app Image 30: 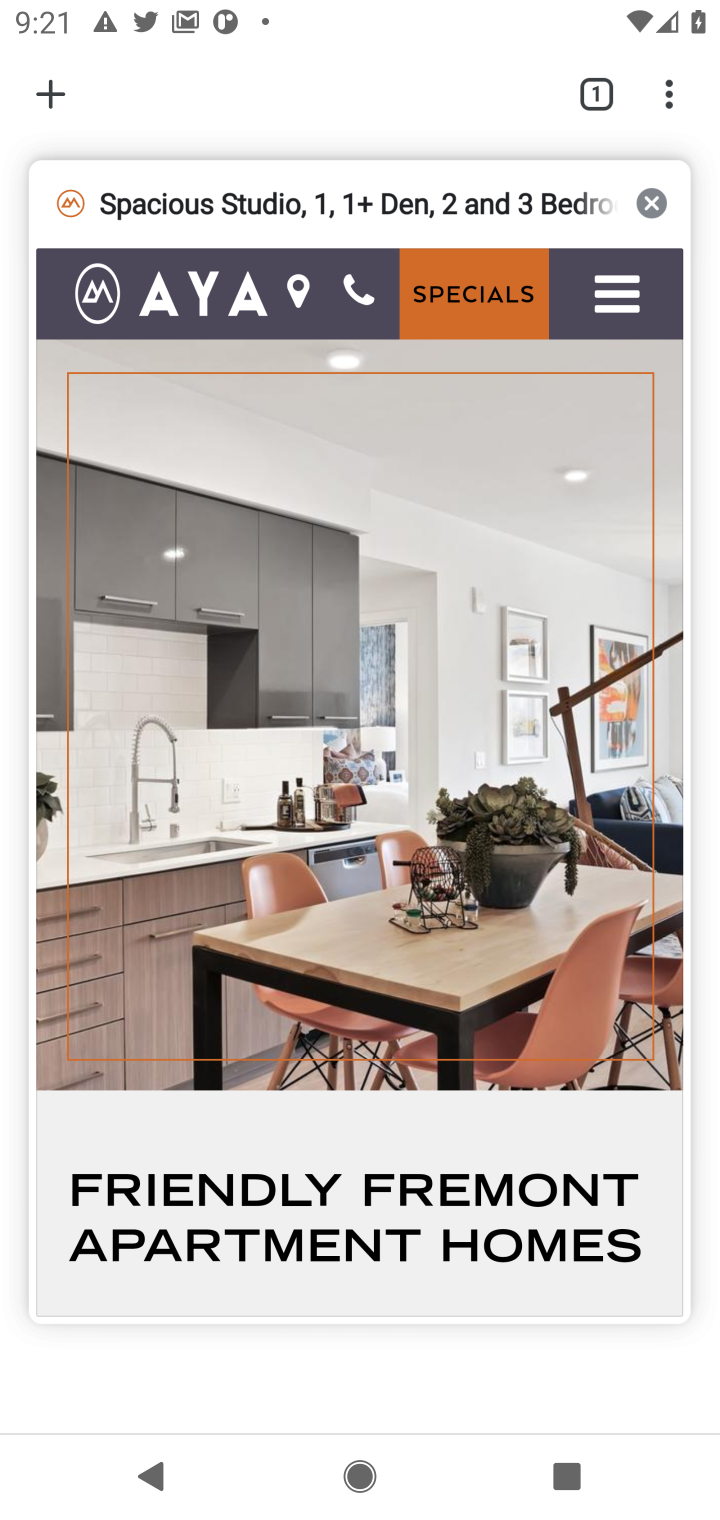
Step 30: click (659, 201)
Your task to perform on an android device: Open a new incognito tab in the chrome app Image 31: 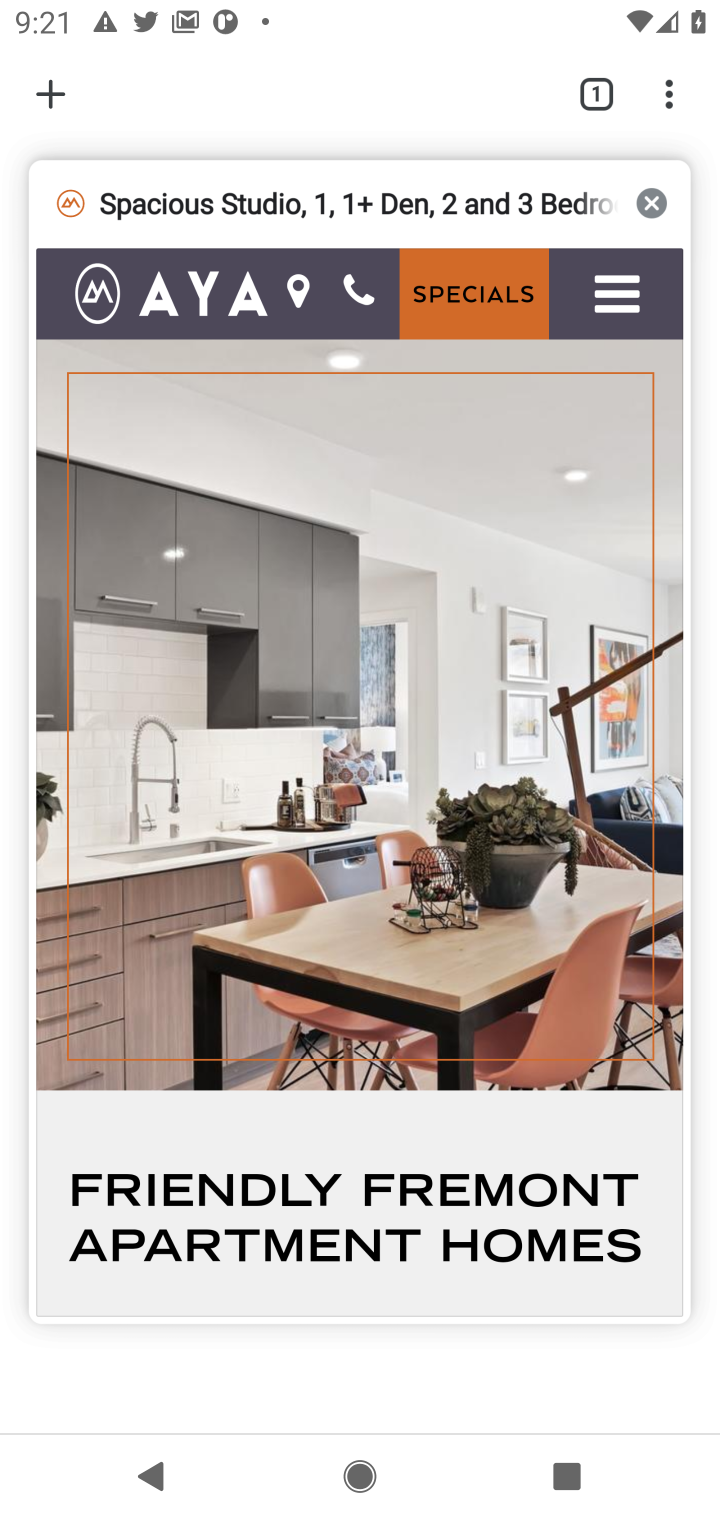
Step 31: click (651, 204)
Your task to perform on an android device: Open a new incognito tab in the chrome app Image 32: 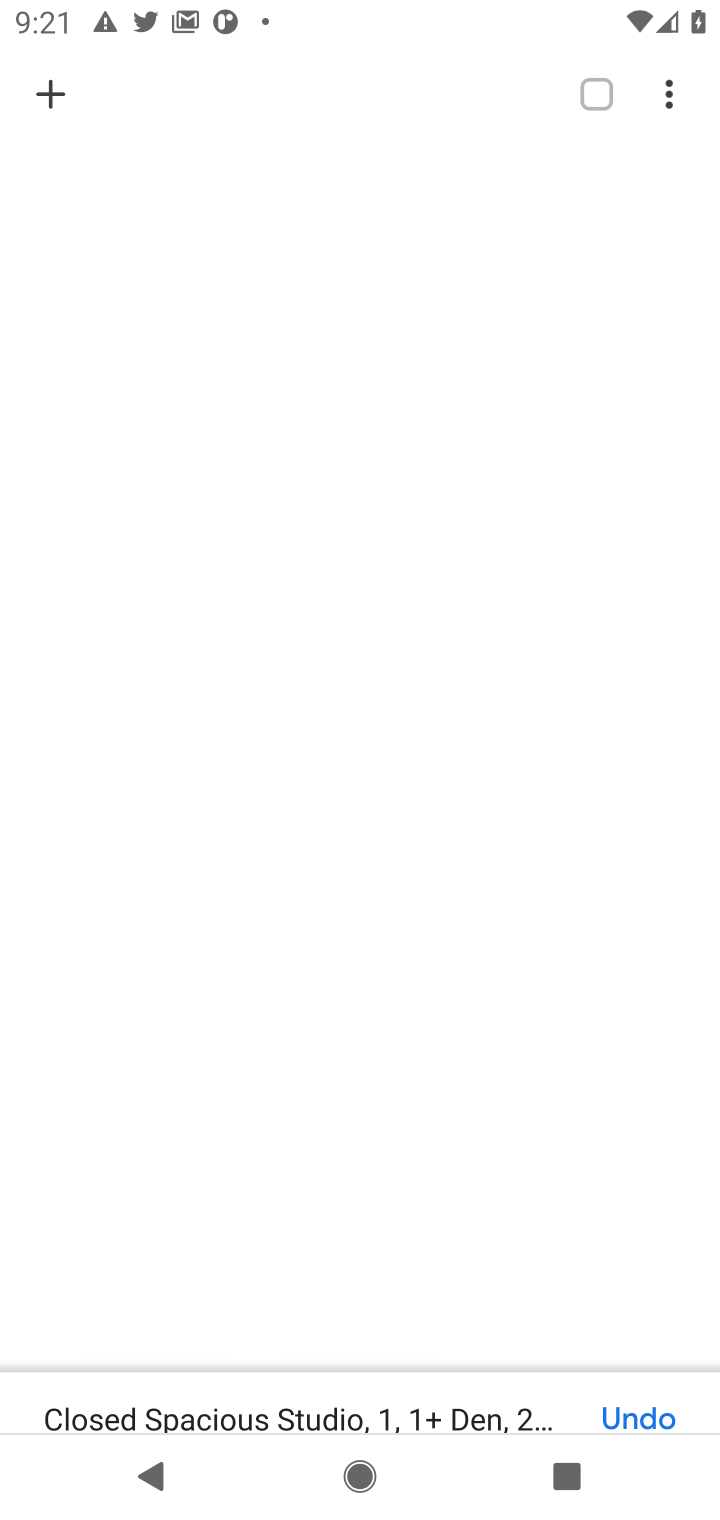
Step 32: click (651, 204)
Your task to perform on an android device: Open a new incognito tab in the chrome app Image 33: 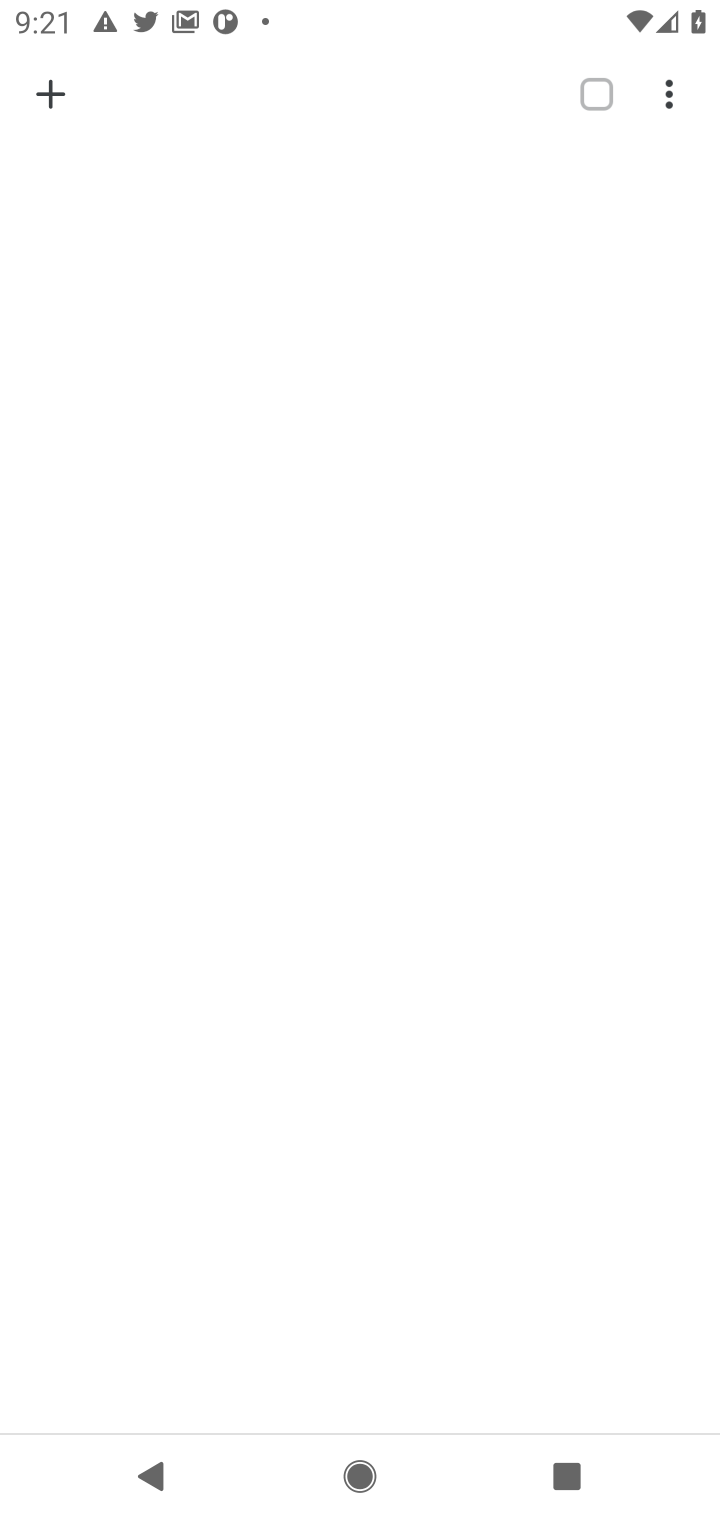
Step 33: click (665, 89)
Your task to perform on an android device: Open a new incognito tab in the chrome app Image 34: 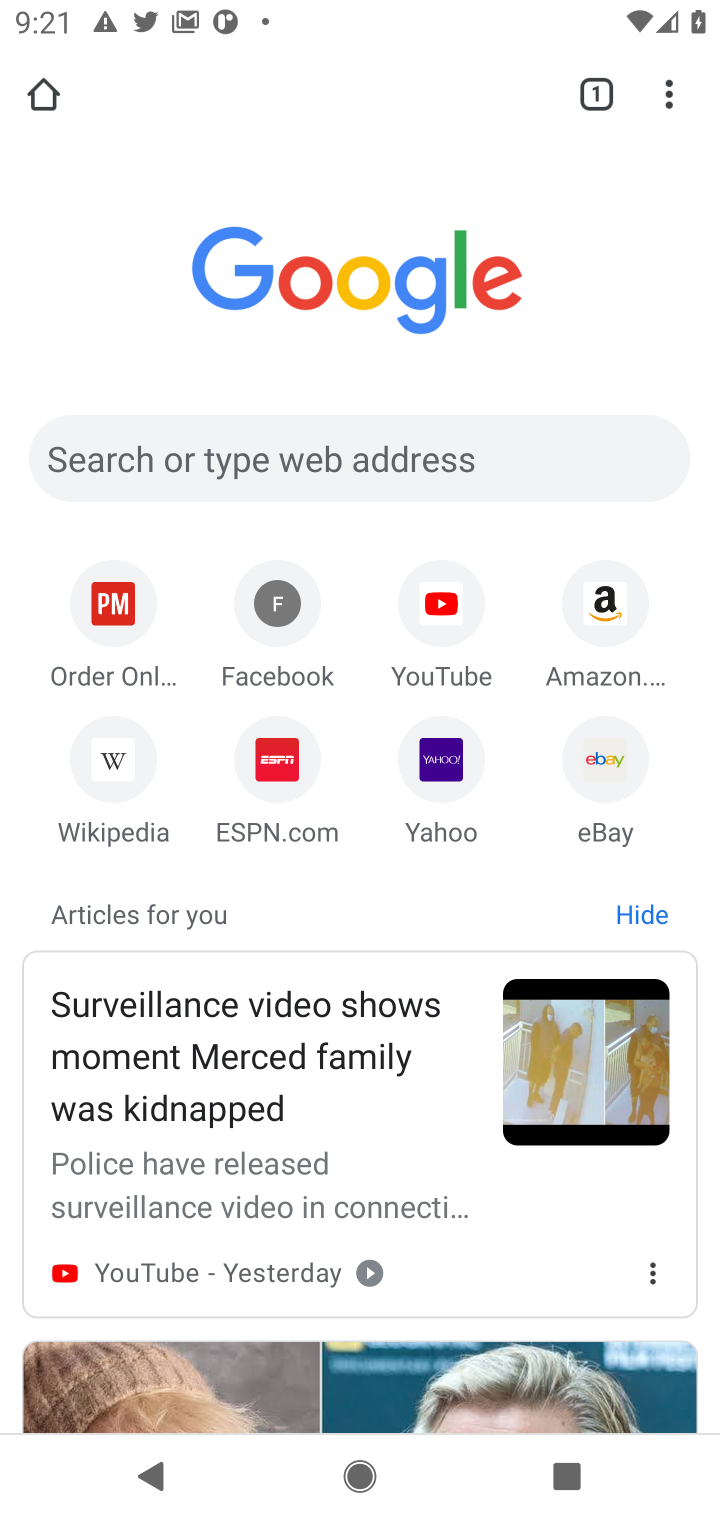
Step 34: click (663, 83)
Your task to perform on an android device: Open a new incognito tab in the chrome app Image 35: 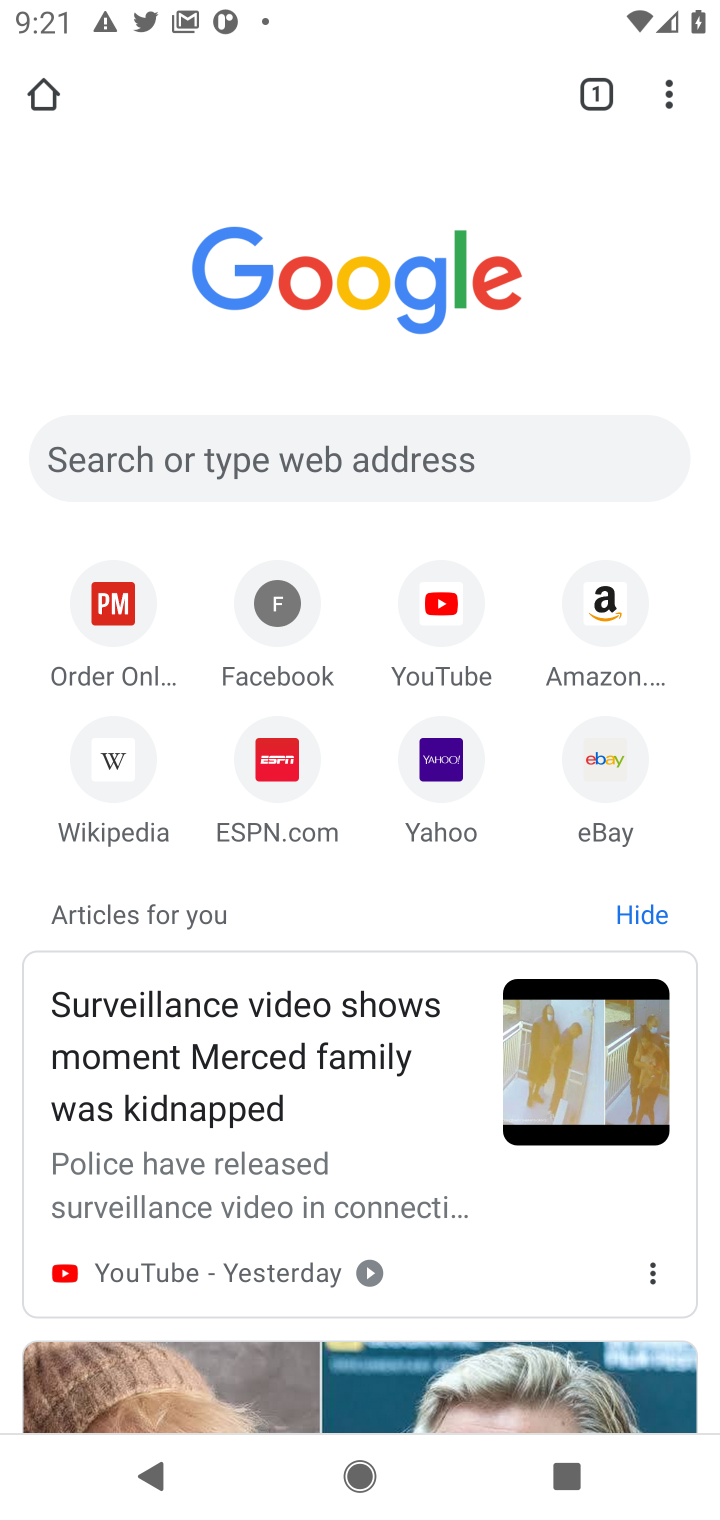
Step 35: click (671, 97)
Your task to perform on an android device: Open a new incognito tab in the chrome app Image 36: 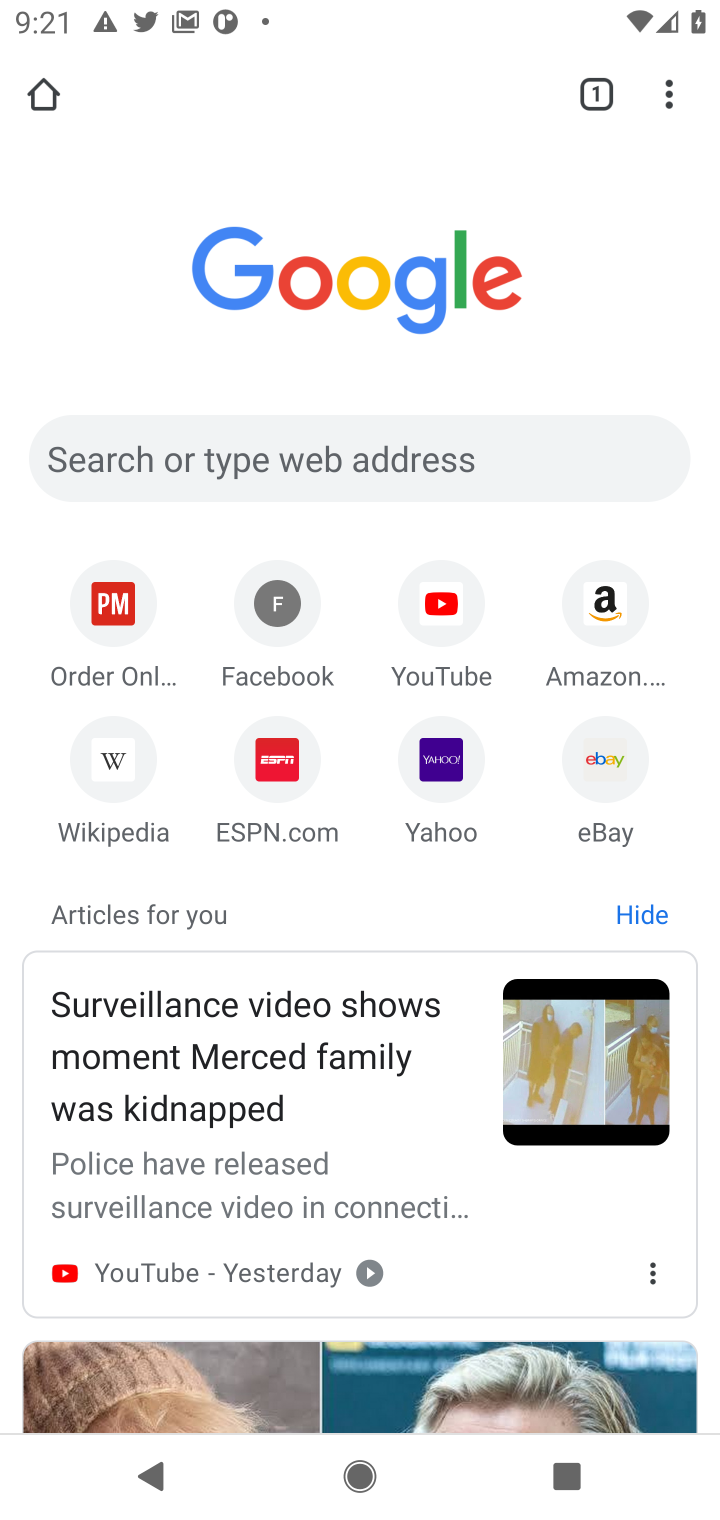
Step 36: click (599, 87)
Your task to perform on an android device: Open a new incognito tab in the chrome app Image 37: 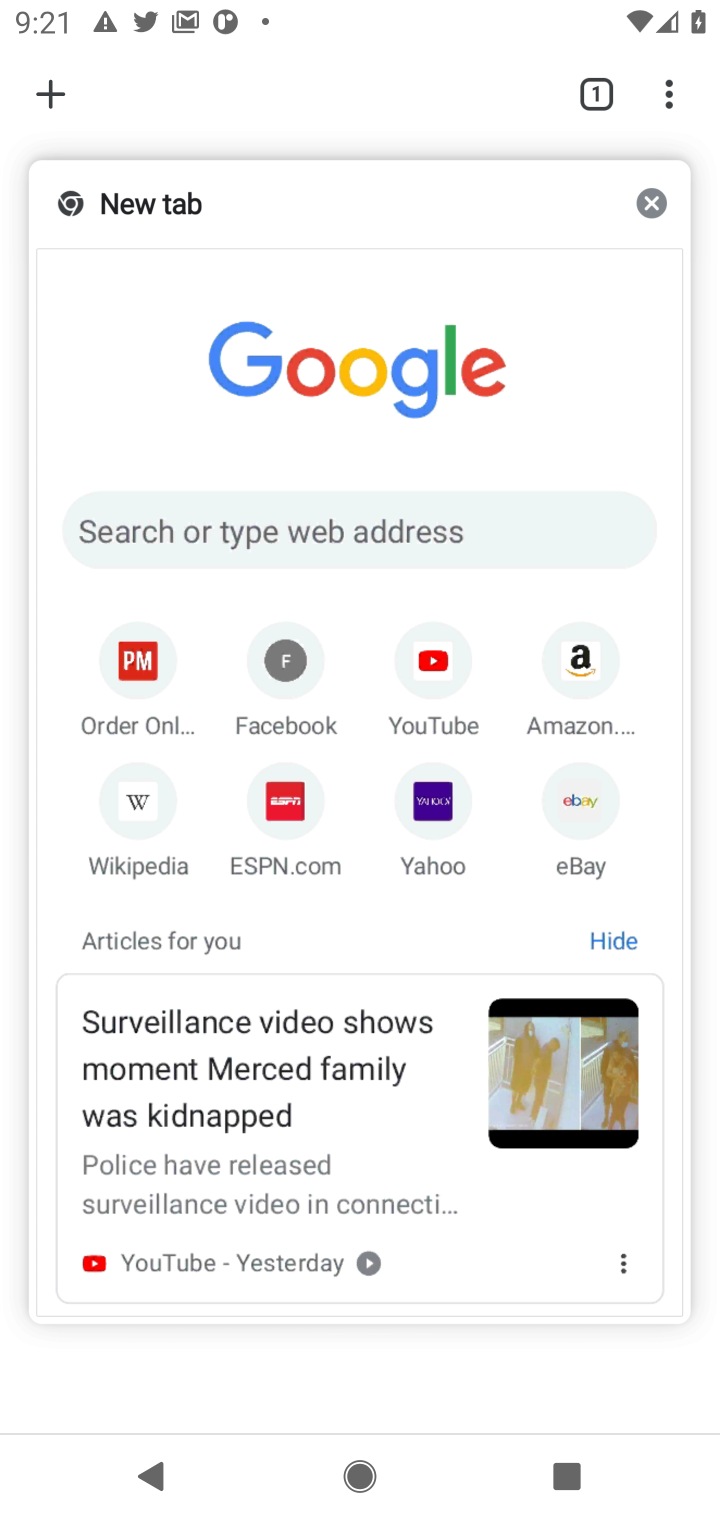
Step 37: click (647, 203)
Your task to perform on an android device: Open a new incognito tab in the chrome app Image 38: 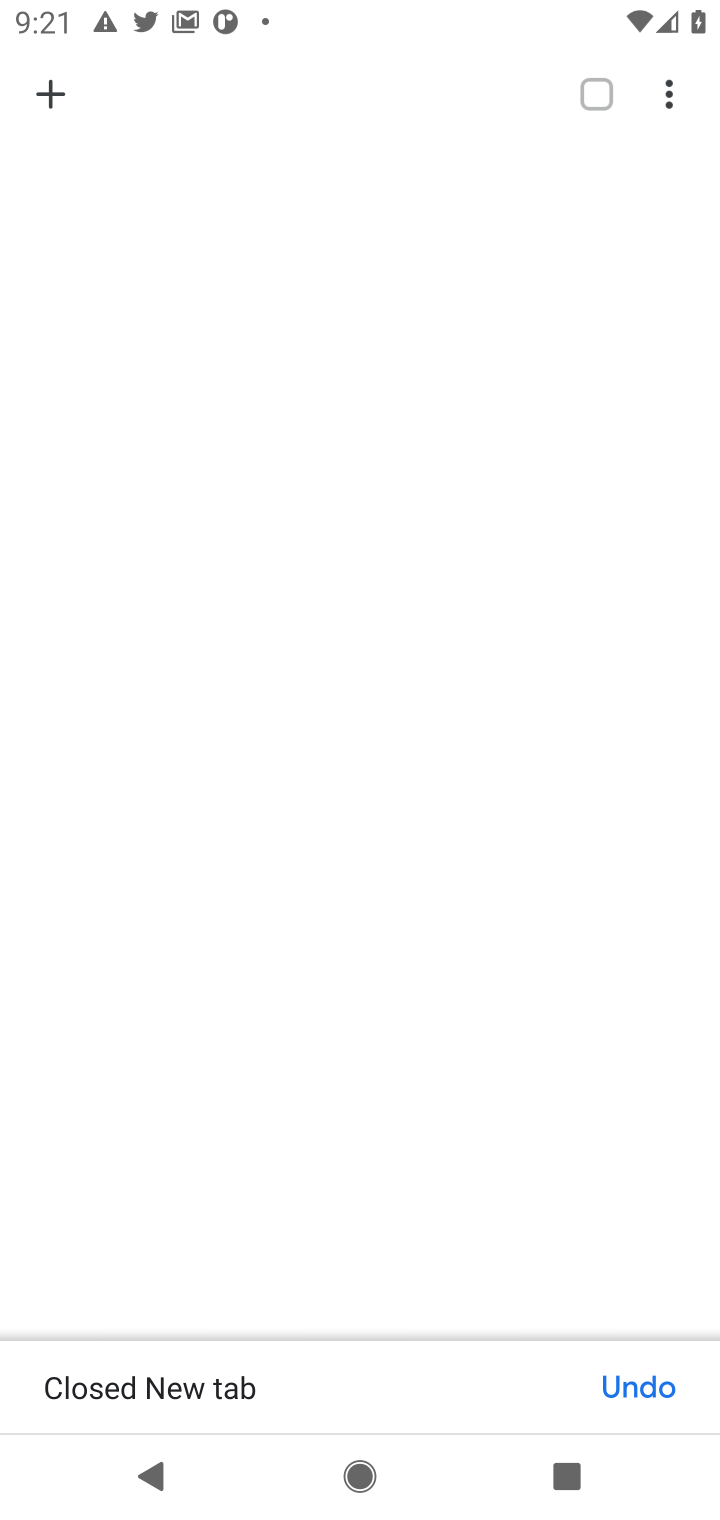
Step 38: click (679, 90)
Your task to perform on an android device: Open a new incognito tab in the chrome app Image 39: 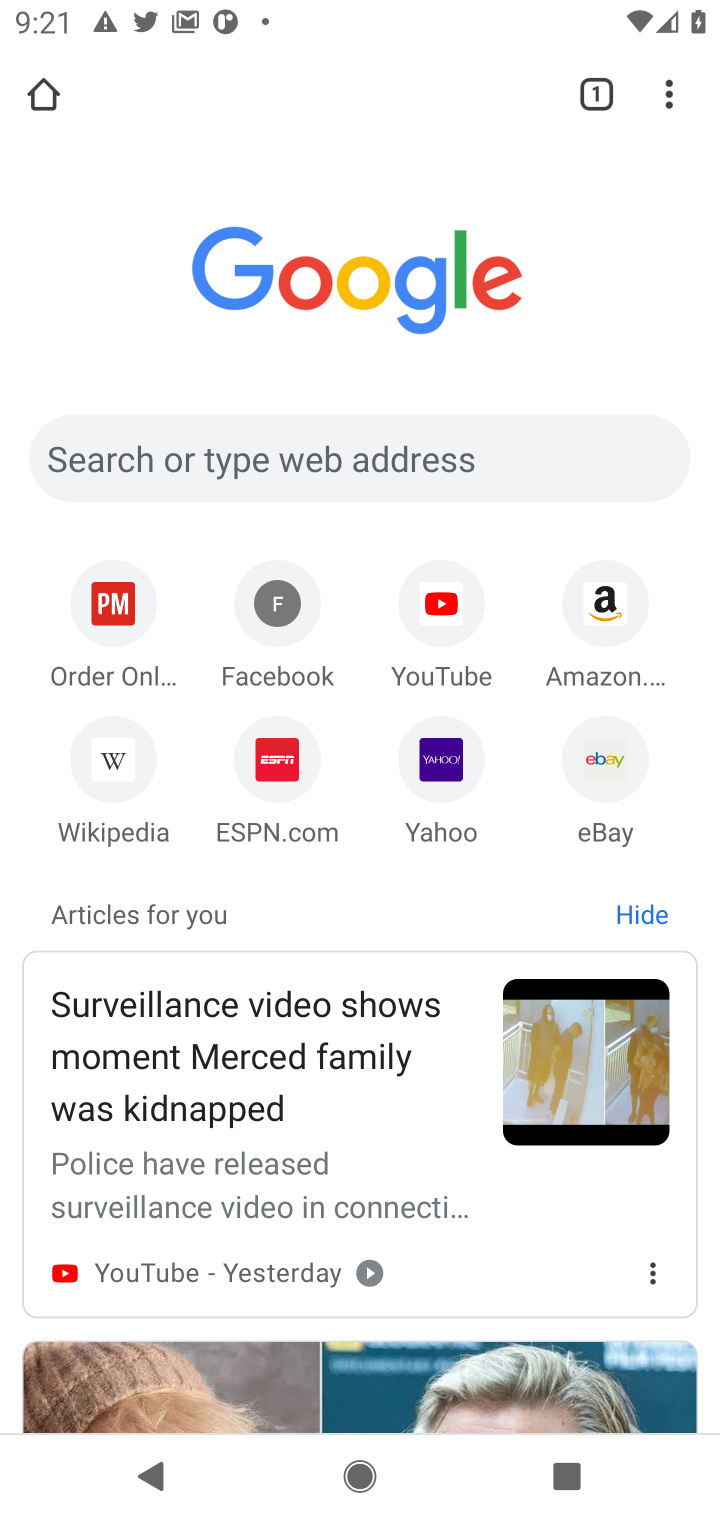
Step 39: click (663, 106)
Your task to perform on an android device: Open a new incognito tab in the chrome app Image 40: 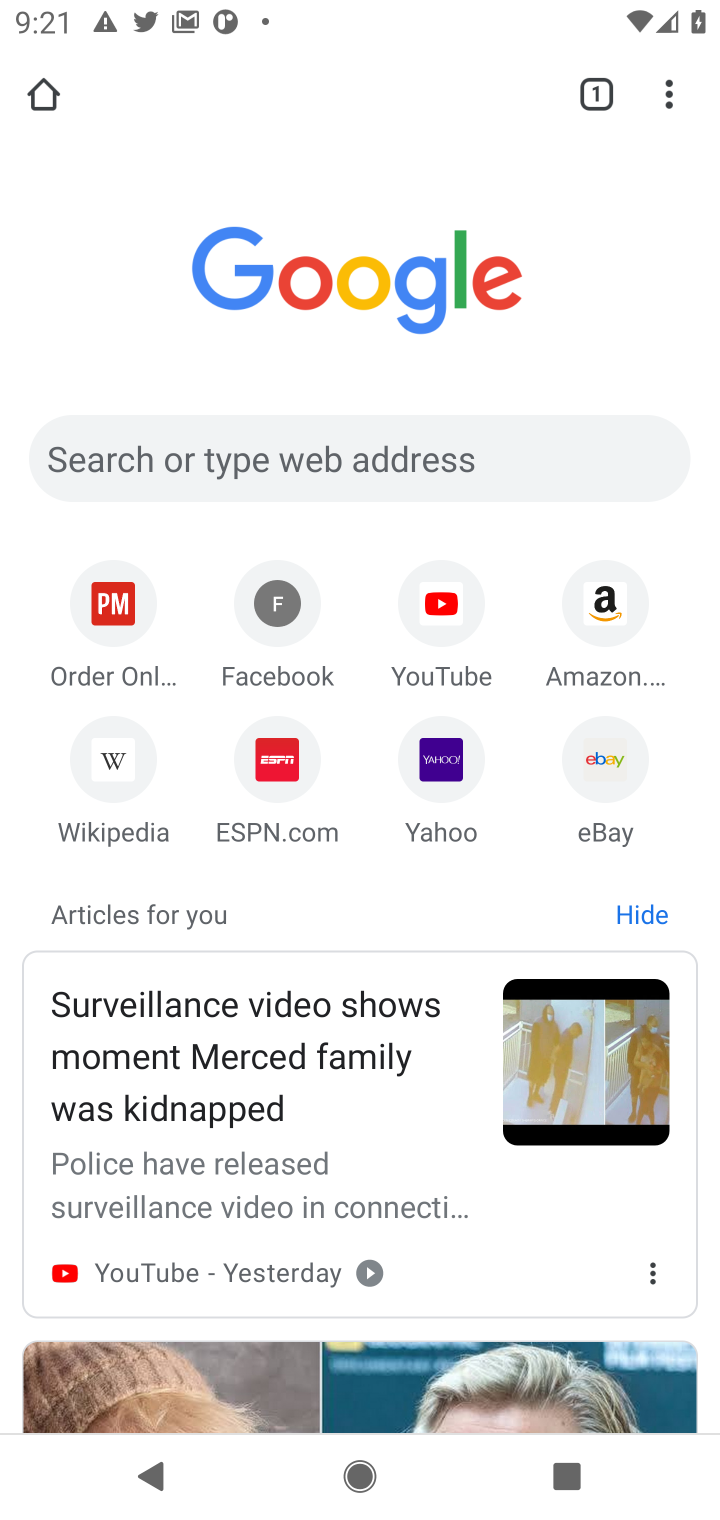
Step 40: click (667, 102)
Your task to perform on an android device: Open a new incognito tab in the chrome app Image 41: 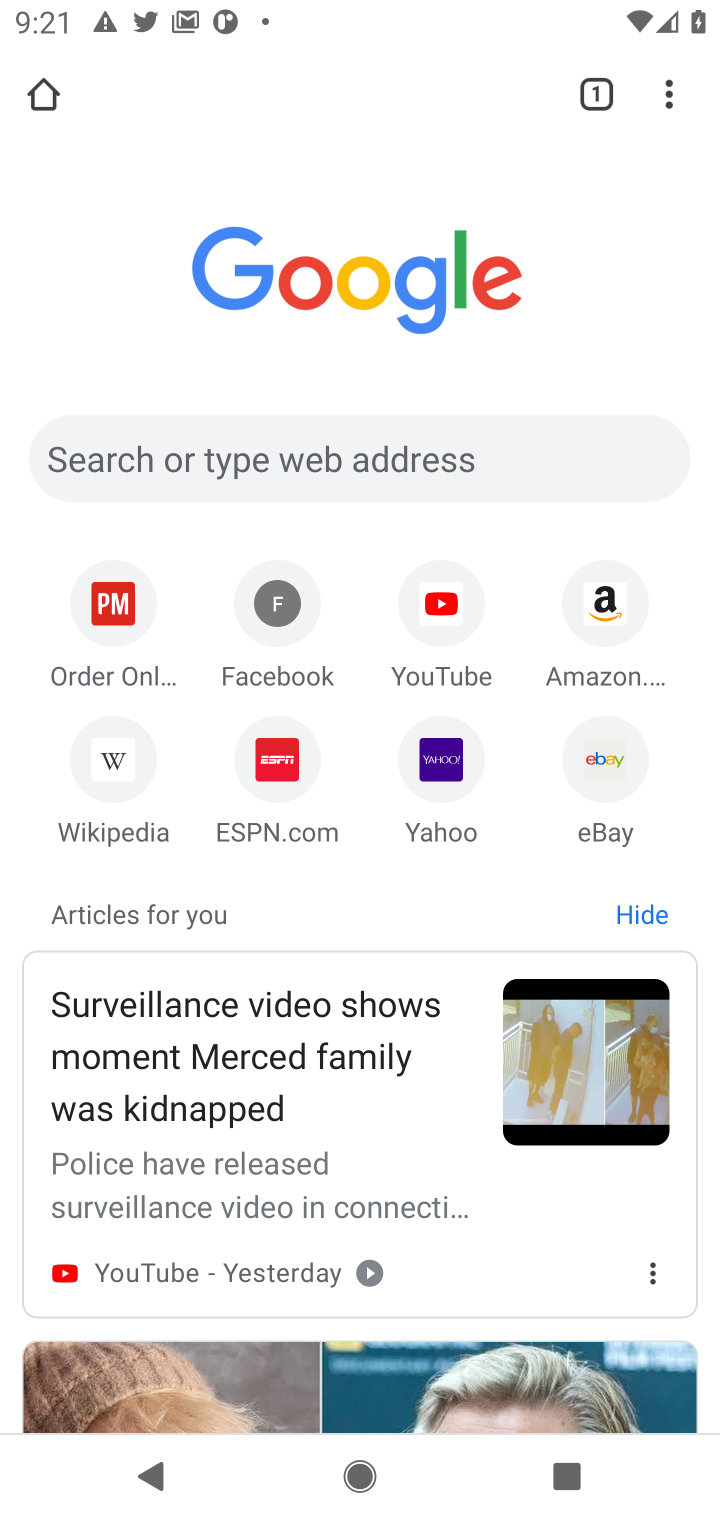
Step 41: click (315, 452)
Your task to perform on an android device: Open a new incognito tab in the chrome app Image 42: 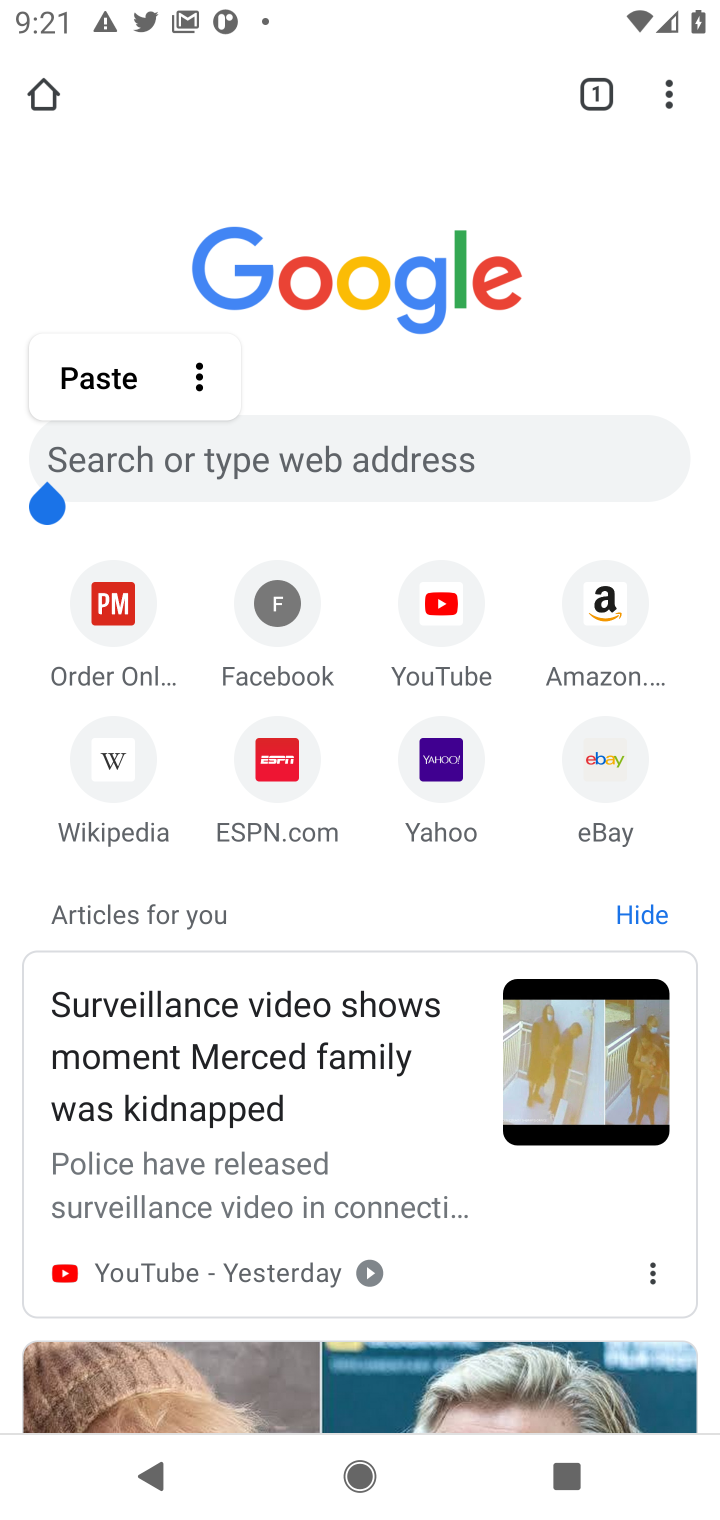
Step 42: click (203, 440)
Your task to perform on an android device: Open a new incognito tab in the chrome app Image 43: 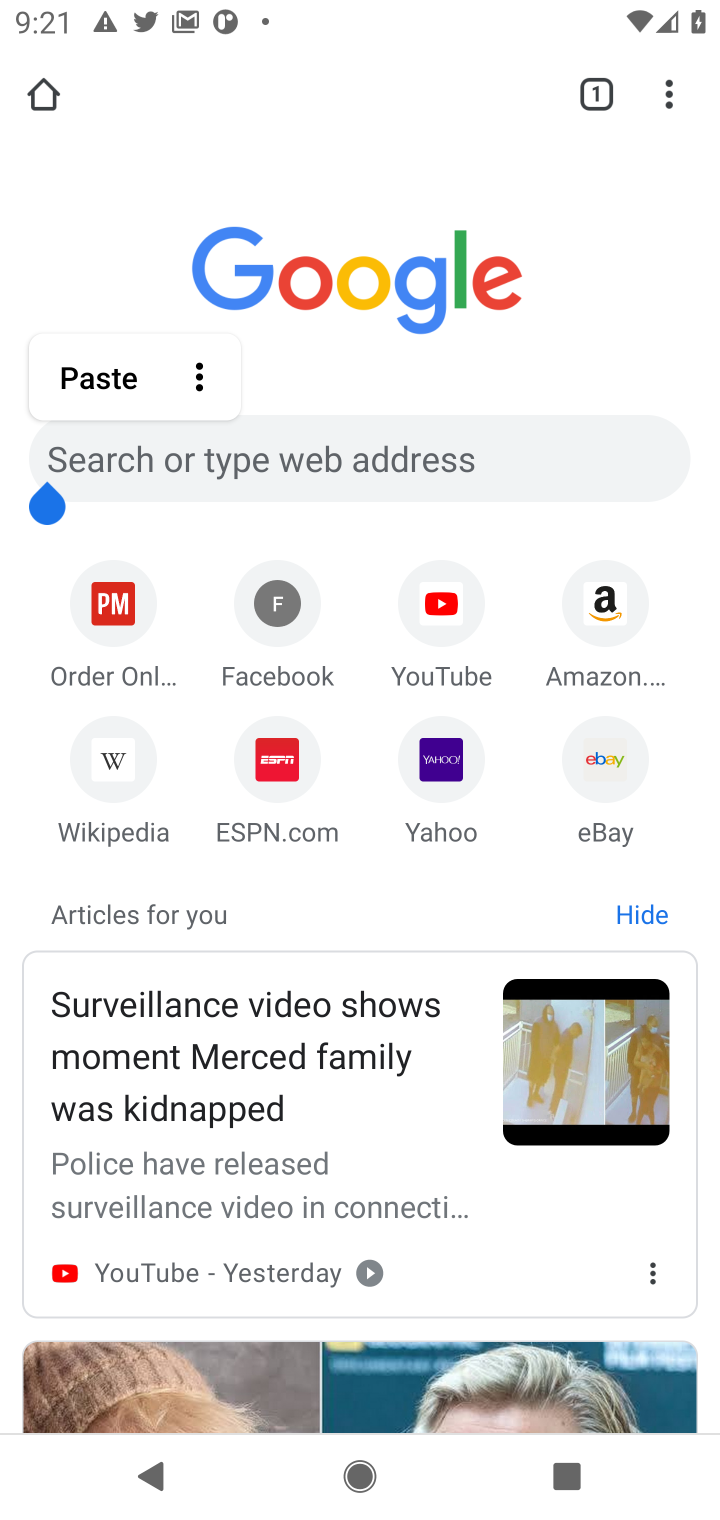
Step 43: click (160, 454)
Your task to perform on an android device: Open a new incognito tab in the chrome app Image 44: 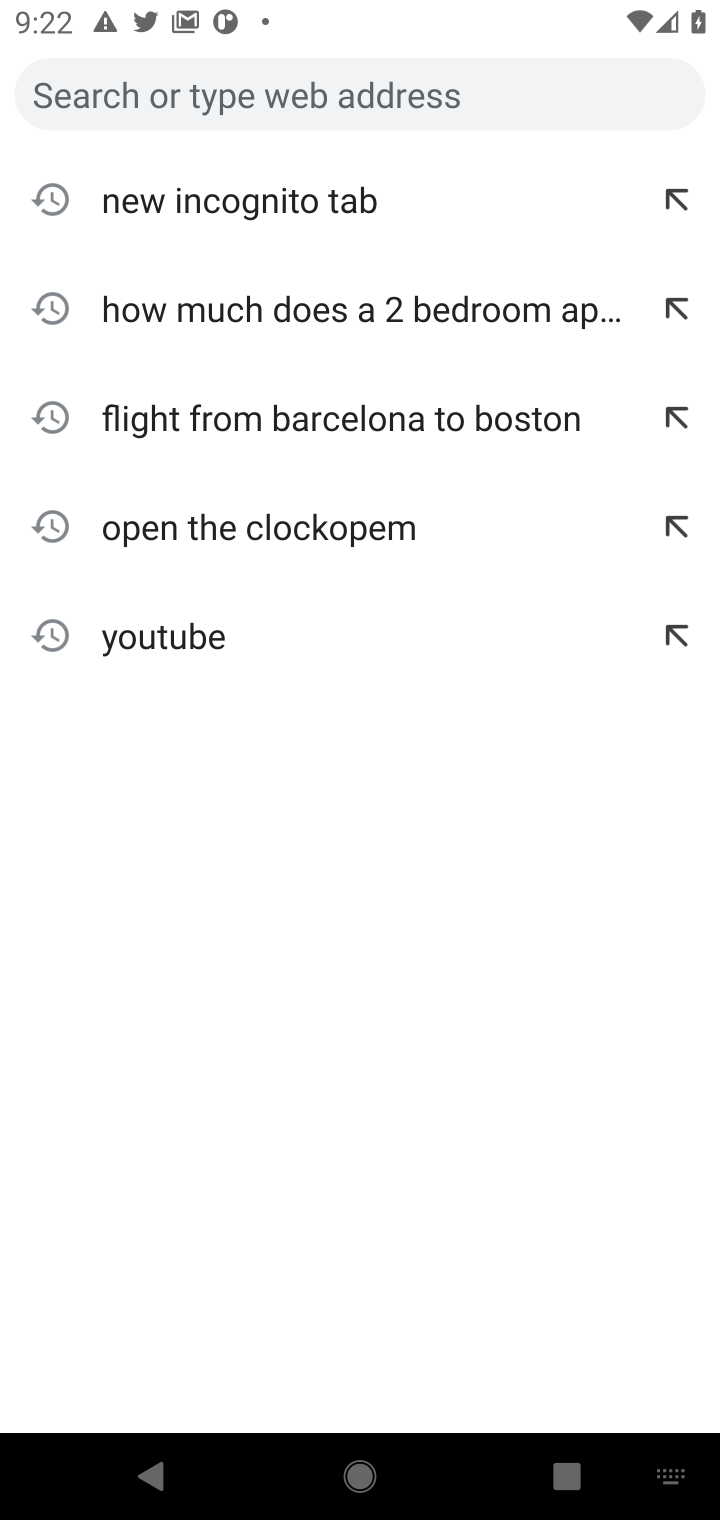
Step 44: click (320, 193)
Your task to perform on an android device: Open a new incognito tab in the chrome app Image 45: 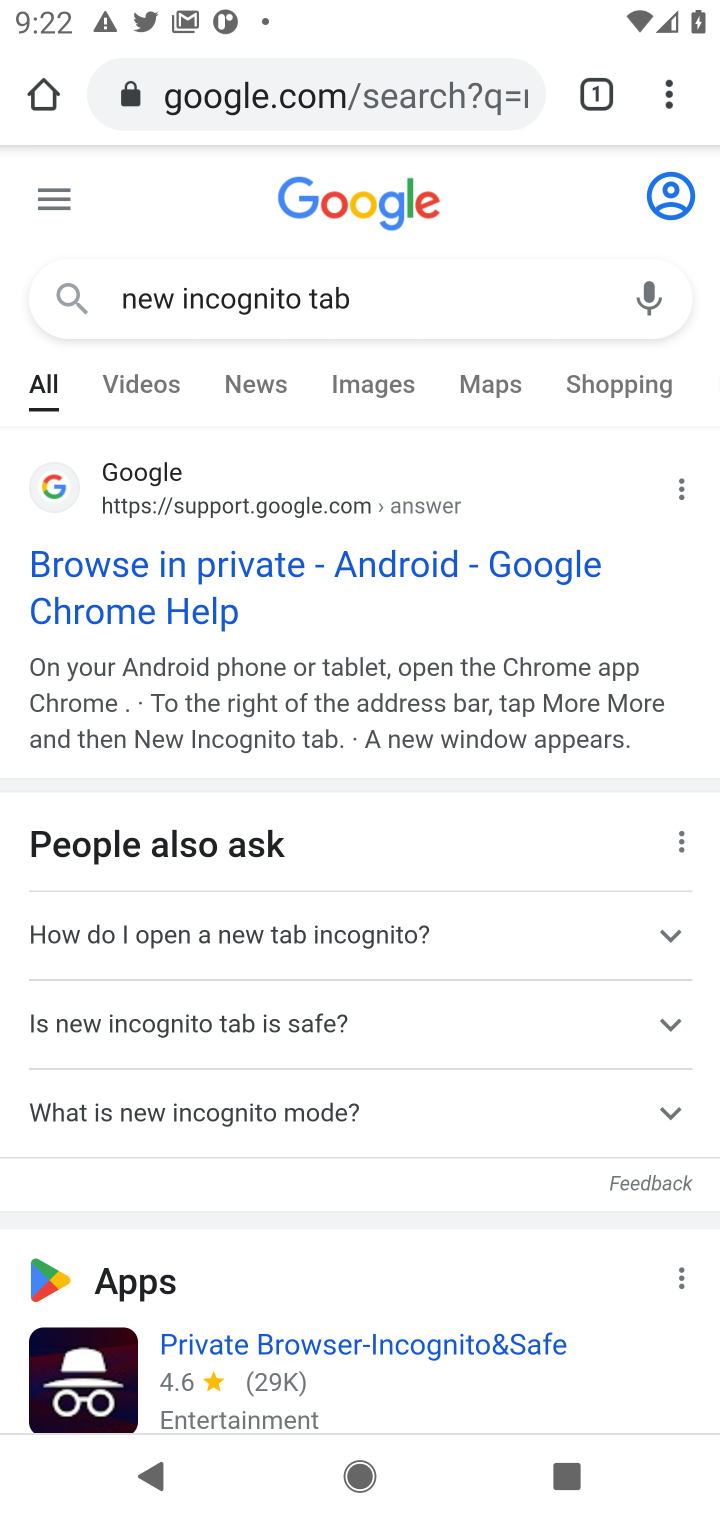
Step 45: drag from (367, 1132) to (401, 582)
Your task to perform on an android device: Open a new incognito tab in the chrome app Image 46: 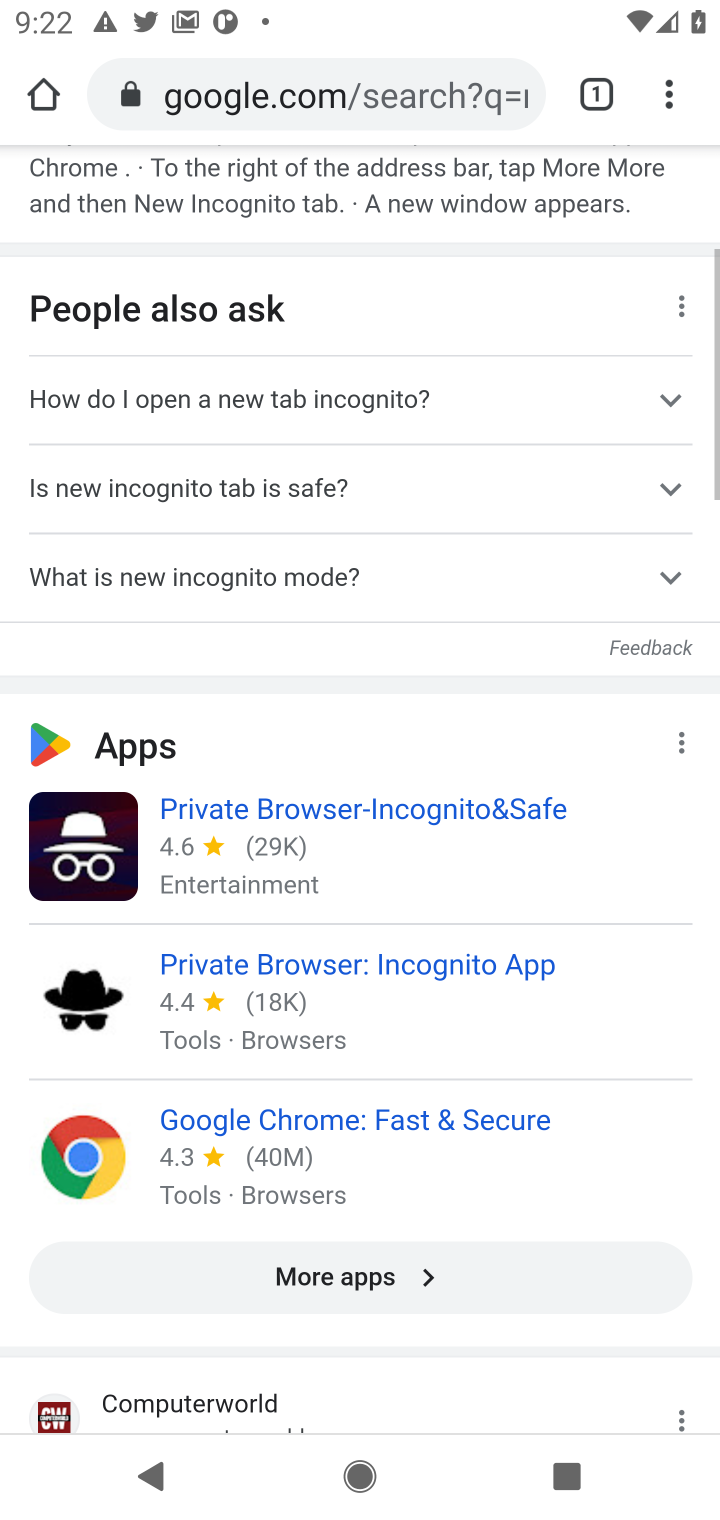
Step 46: drag from (469, 1335) to (618, 557)
Your task to perform on an android device: Open a new incognito tab in the chrome app Image 47: 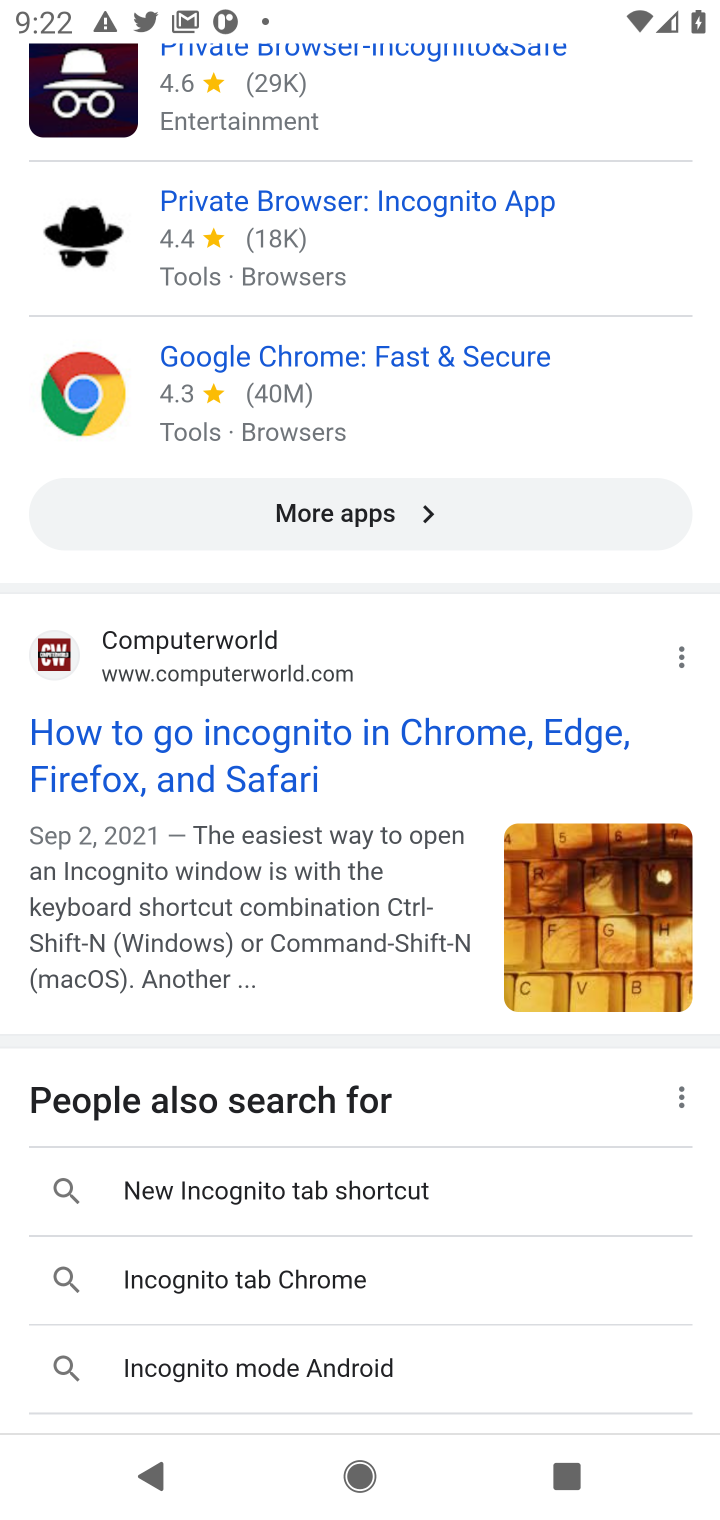
Step 47: click (224, 1277)
Your task to perform on an android device: Open a new incognito tab in the chrome app Image 48: 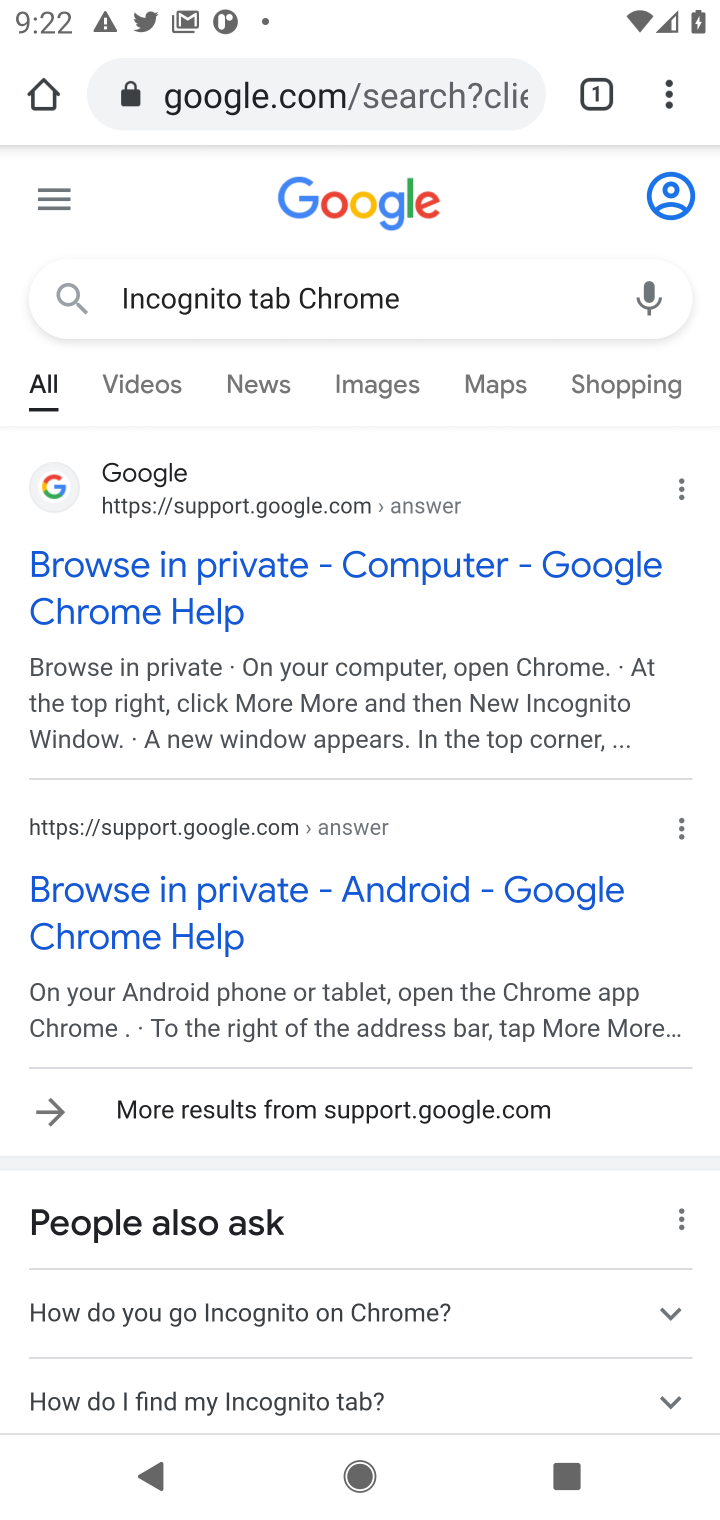
Step 48: drag from (299, 1064) to (364, 610)
Your task to perform on an android device: Open a new incognito tab in the chrome app Image 49: 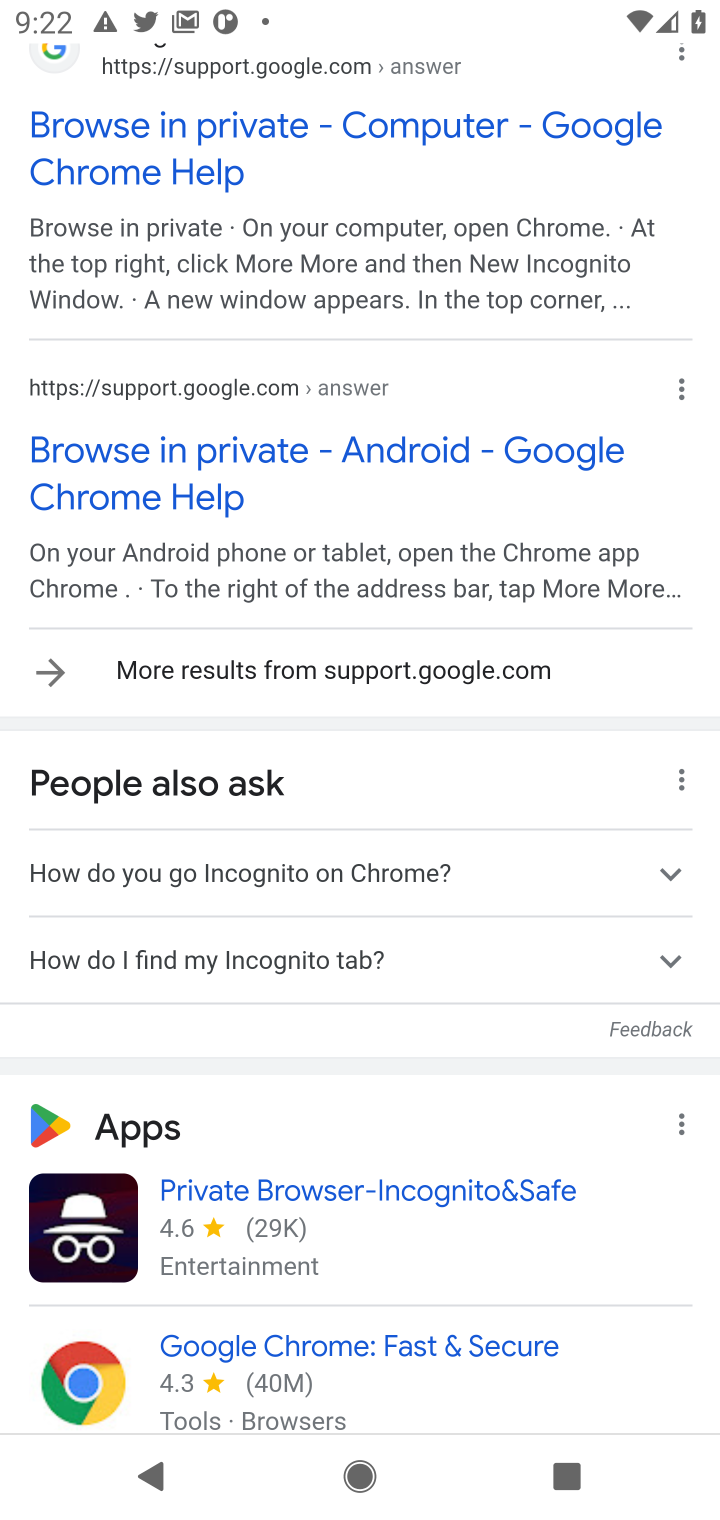
Step 49: click (448, 1186)
Your task to perform on an android device: Open a new incognito tab in the chrome app Image 50: 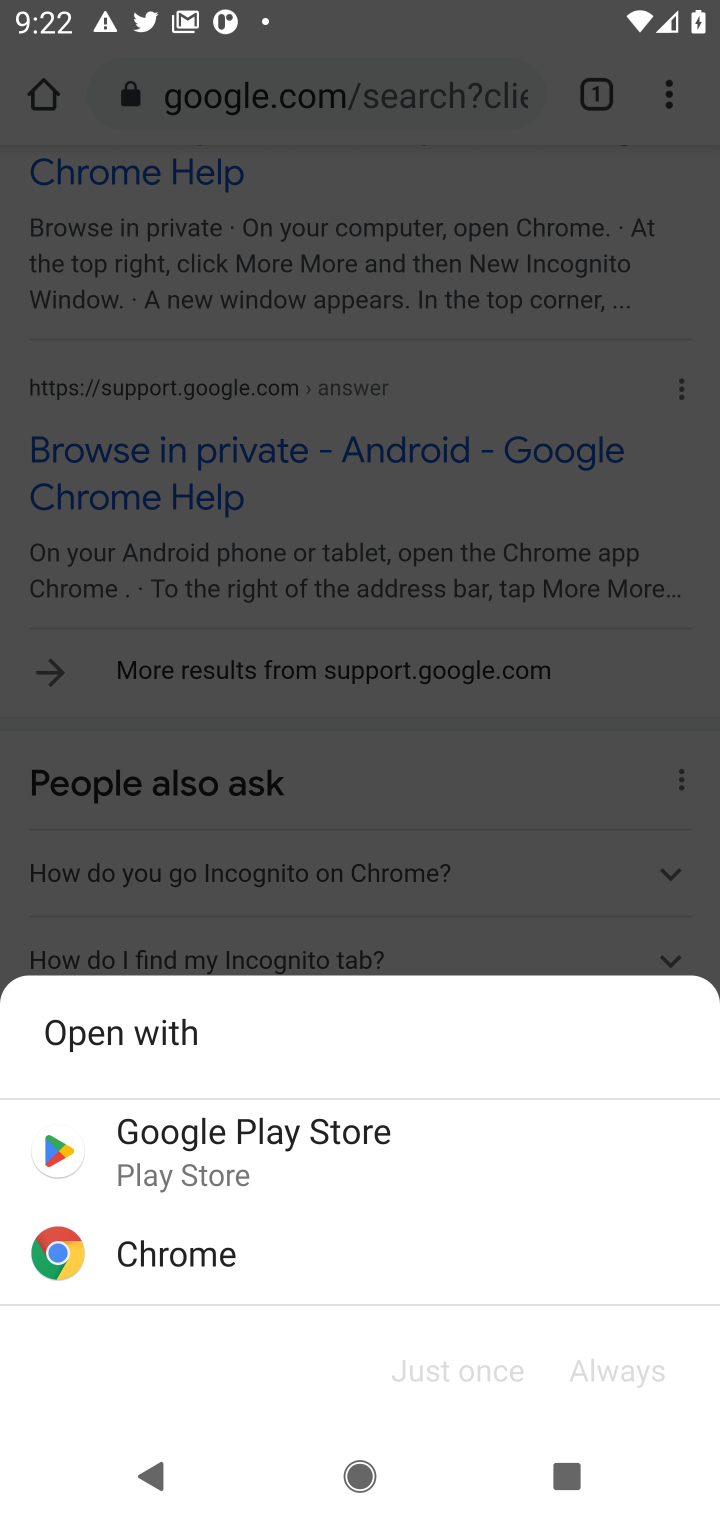
Step 50: click (178, 1259)
Your task to perform on an android device: Open a new incognito tab in the chrome app Image 51: 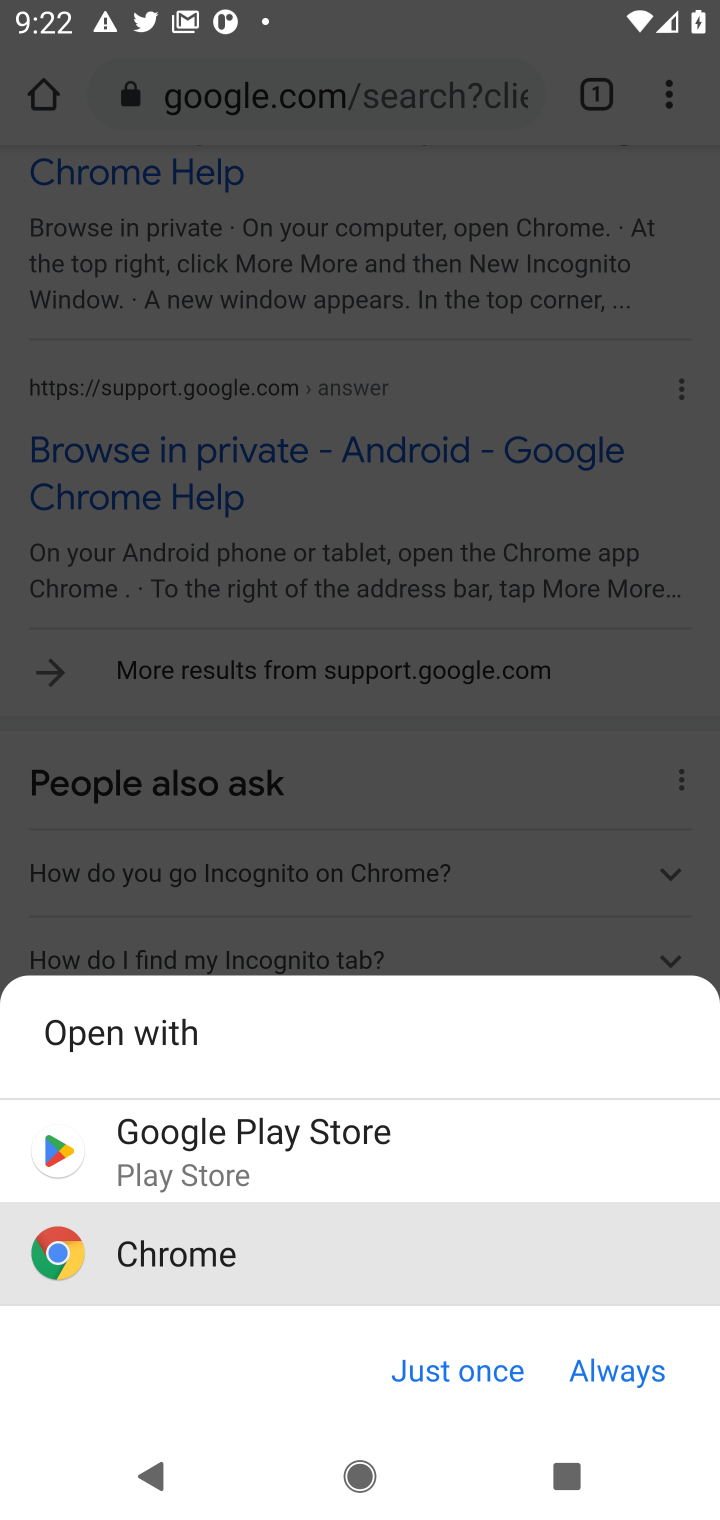
Step 51: click (645, 1363)
Your task to perform on an android device: Open a new incognito tab in the chrome app Image 52: 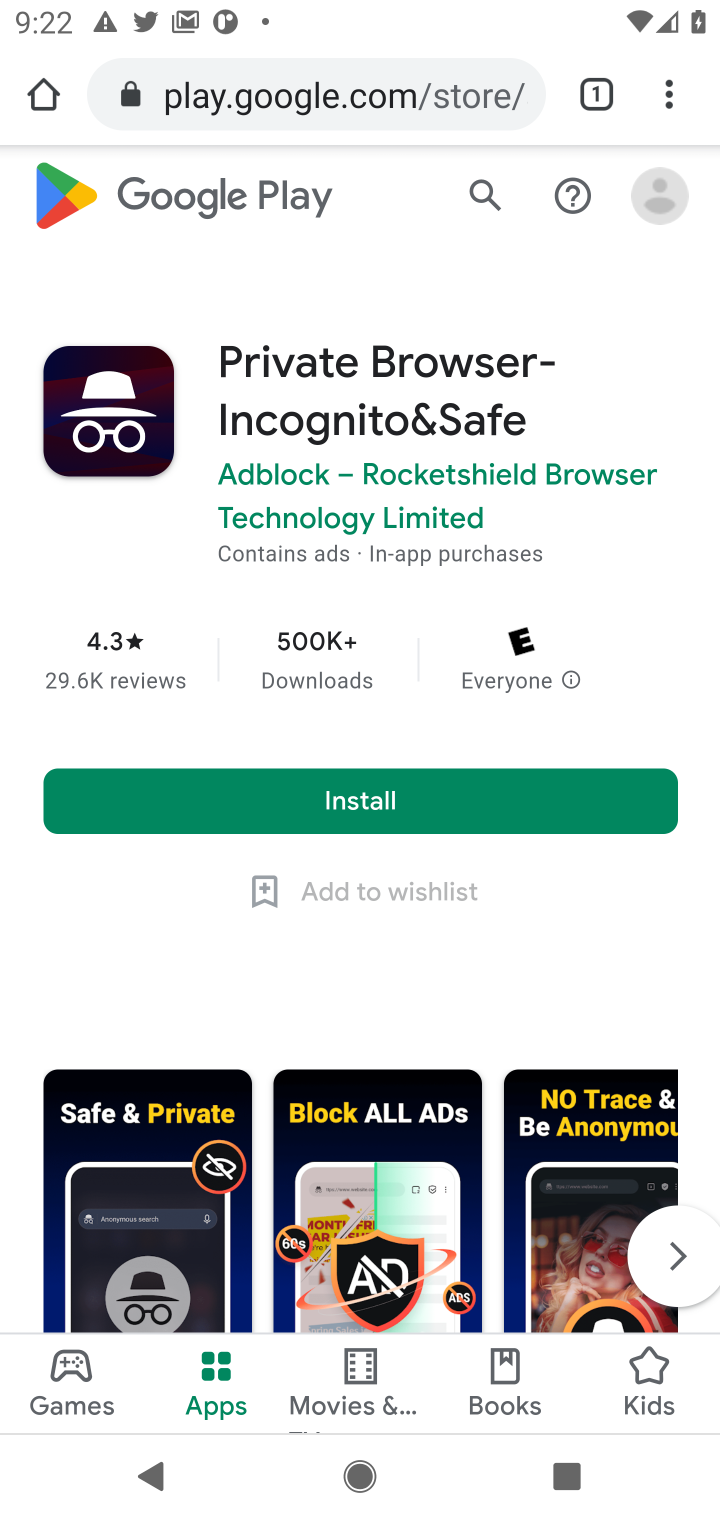
Step 52: click (660, 94)
Your task to perform on an android device: Open a new incognito tab in the chrome app Image 53: 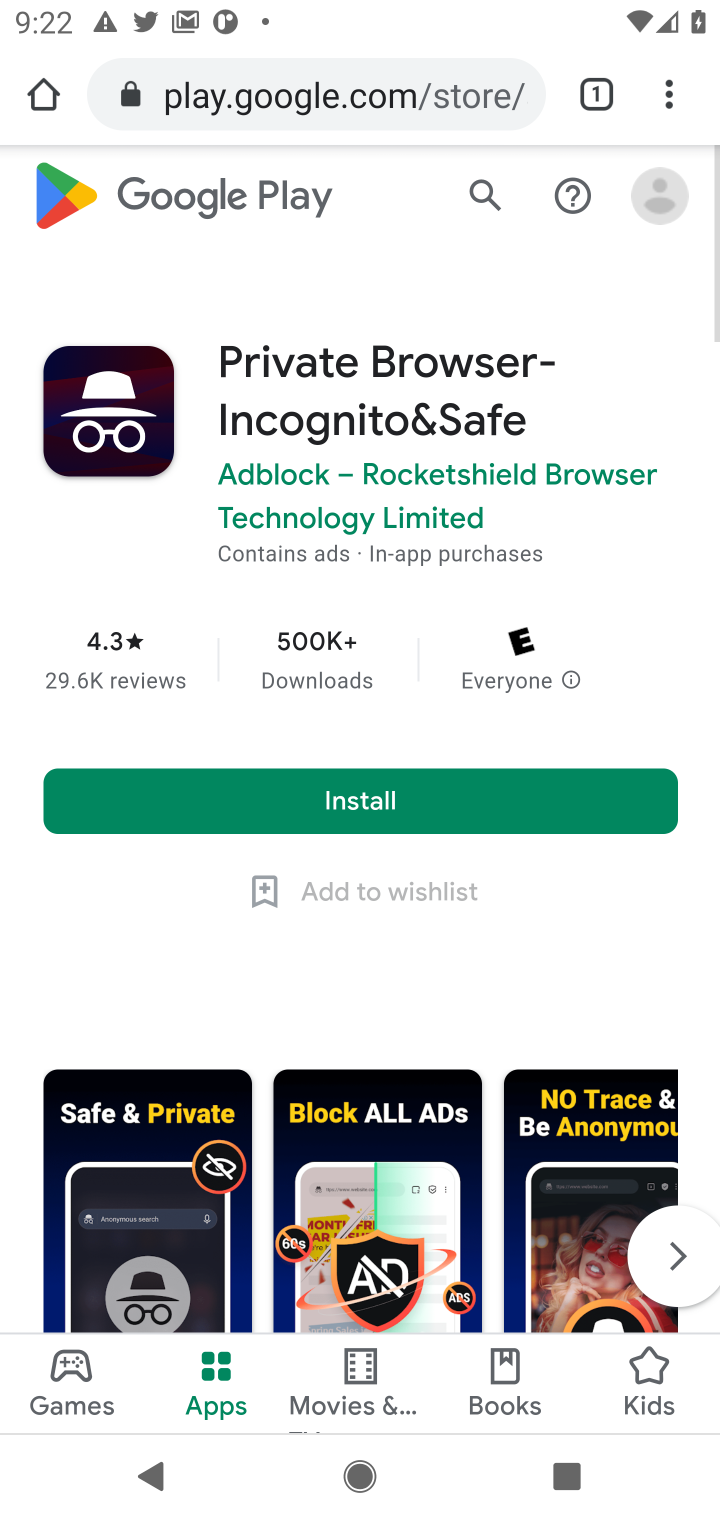
Step 53: click (667, 92)
Your task to perform on an android device: Open a new incognito tab in the chrome app Image 54: 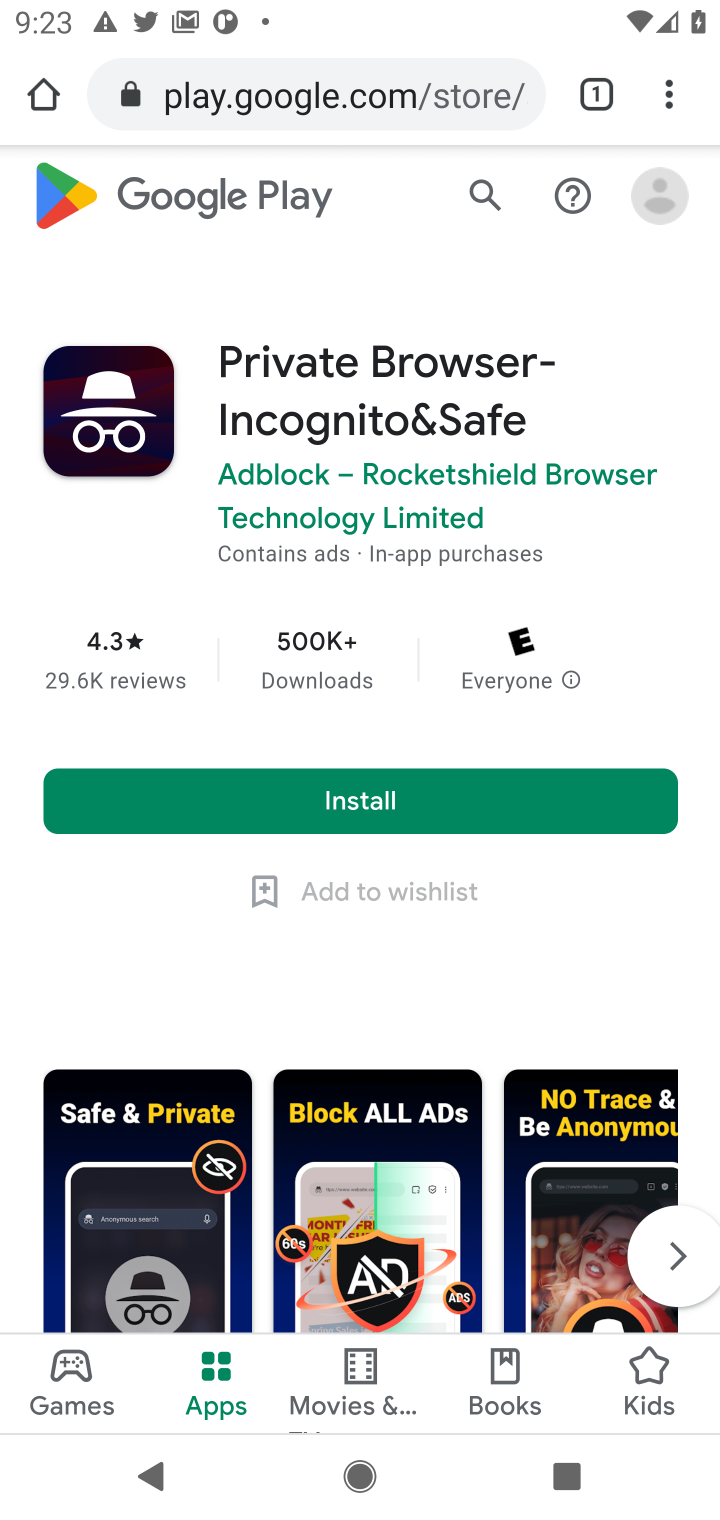
Step 54: task complete